Your task to perform on an android device: Show the shopping cart on walmart.com. Add jbl charge 4 to the cart on walmart.com Image 0: 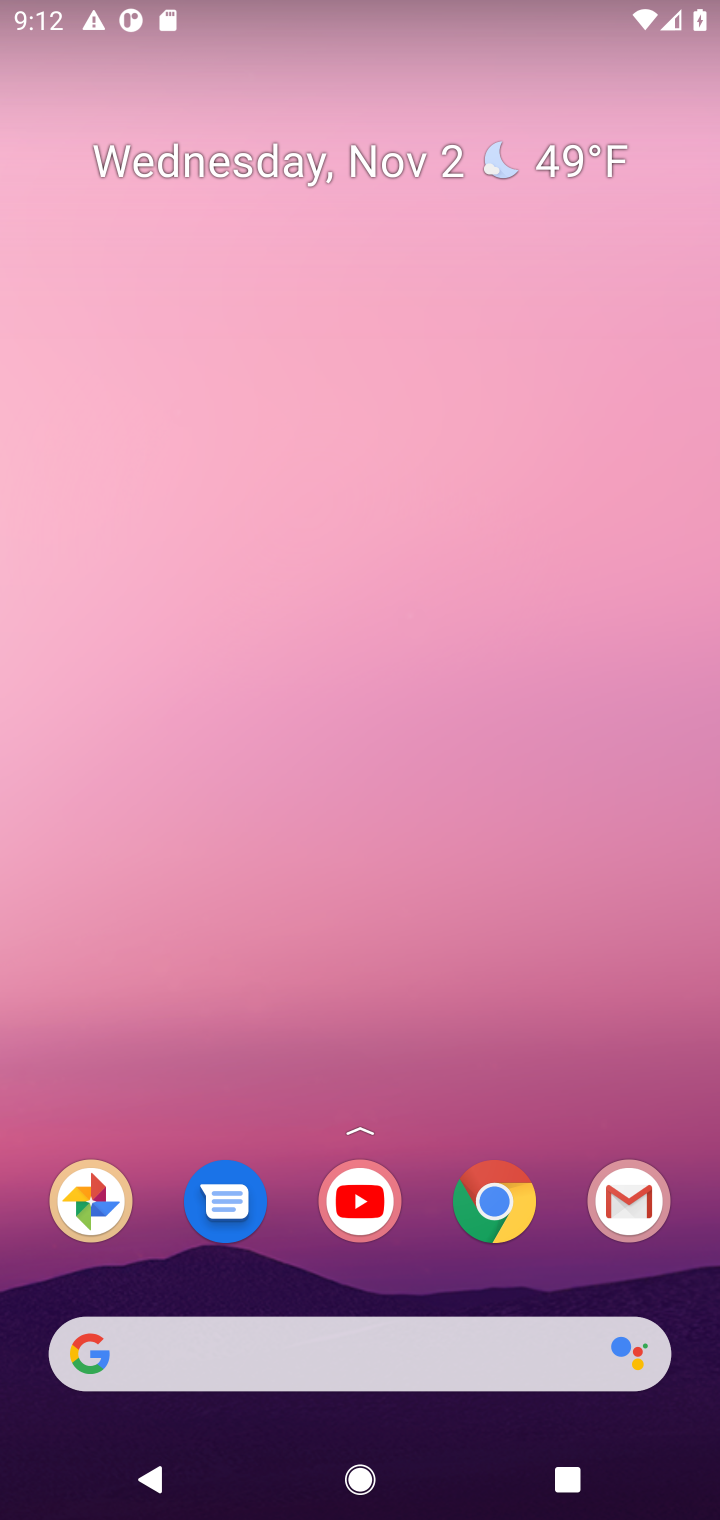
Step 0: drag from (419, 1260) to (527, 212)
Your task to perform on an android device: Show the shopping cart on walmart.com. Add jbl charge 4 to the cart on walmart.com Image 1: 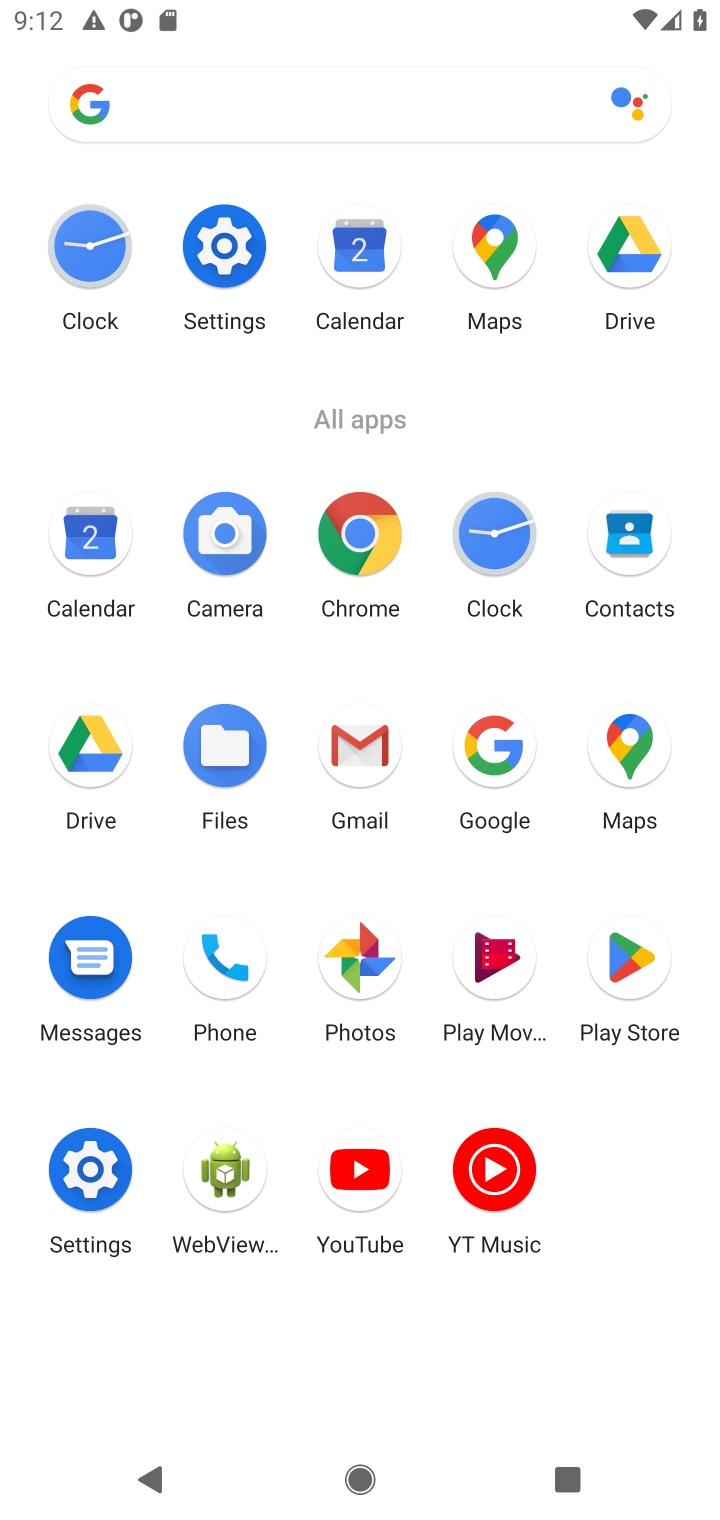
Step 1: click (365, 562)
Your task to perform on an android device: Show the shopping cart on walmart.com. Add jbl charge 4 to the cart on walmart.com Image 2: 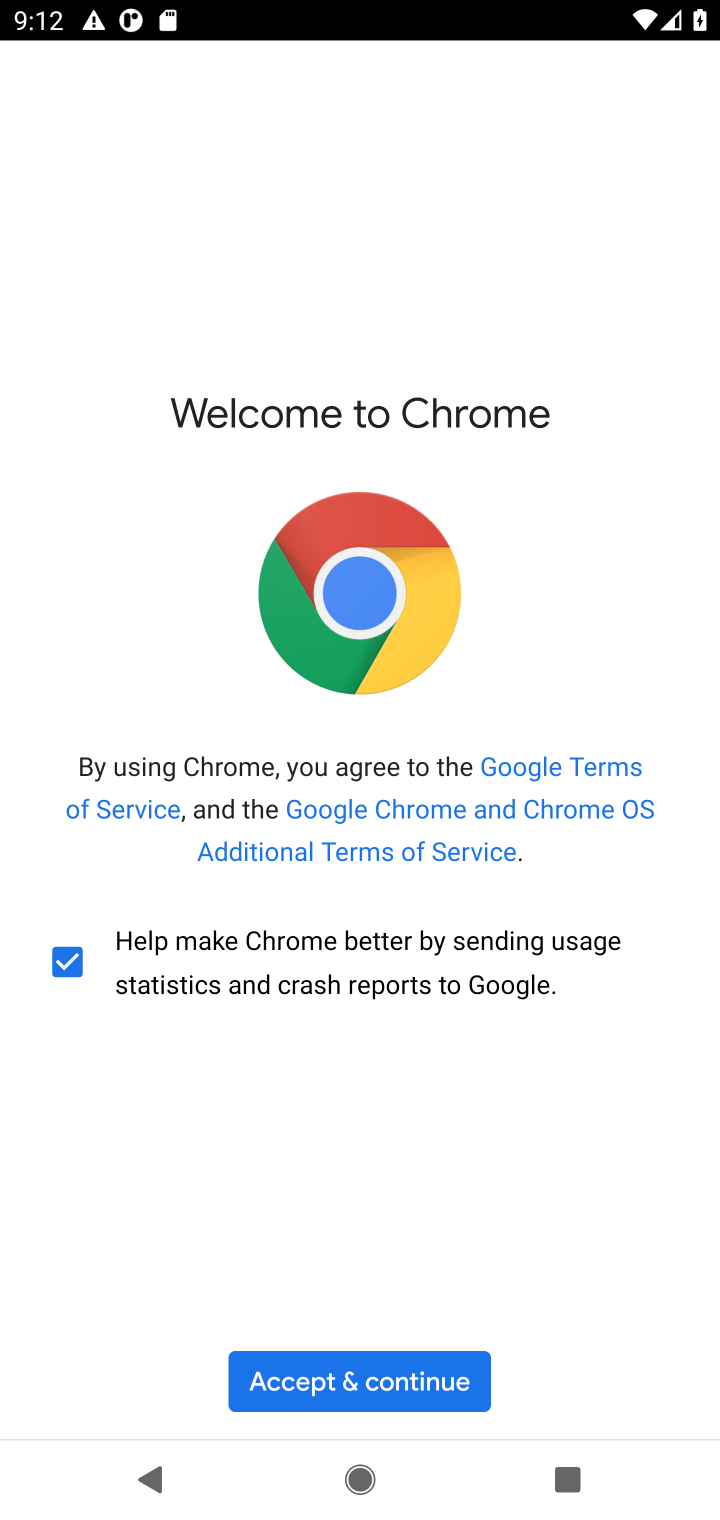
Step 2: click (352, 1390)
Your task to perform on an android device: Show the shopping cart on walmart.com. Add jbl charge 4 to the cart on walmart.com Image 3: 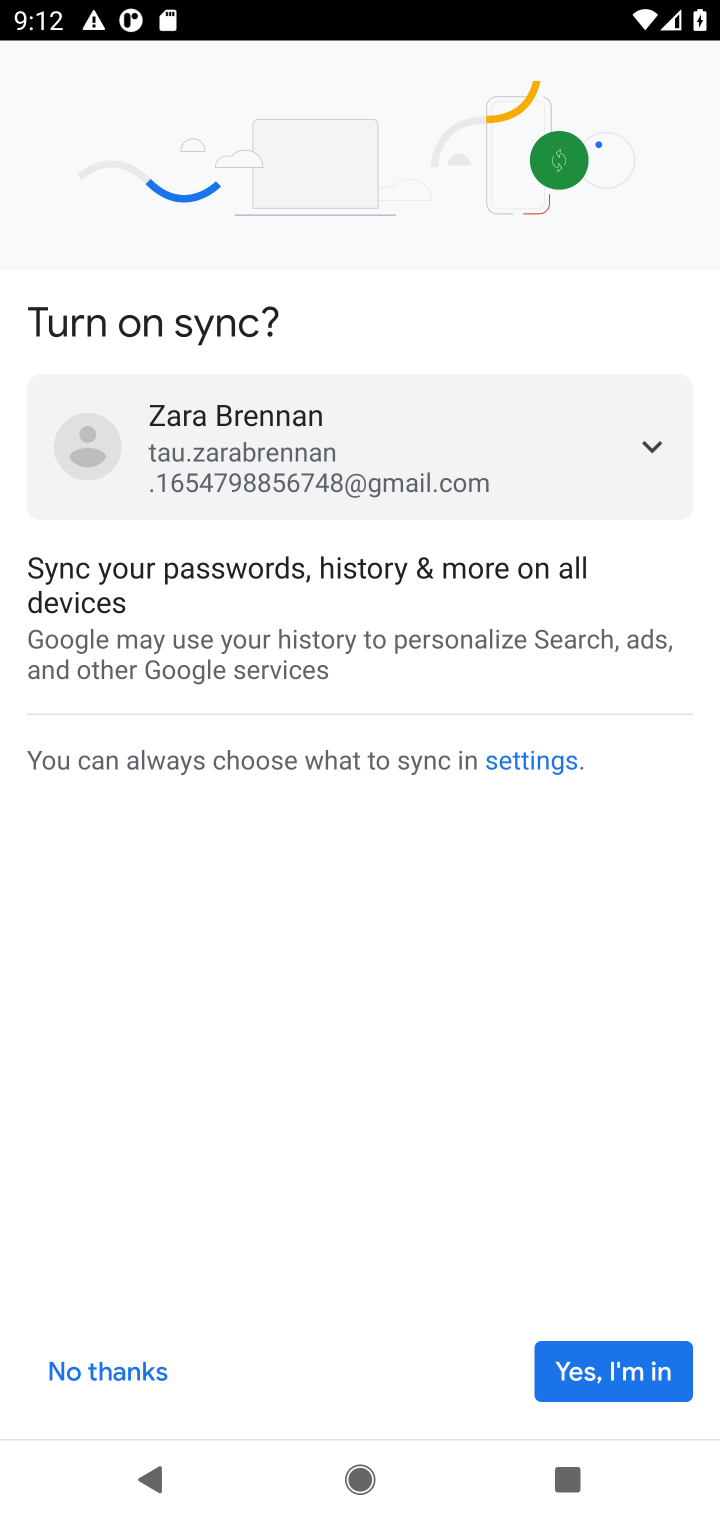
Step 3: click (596, 1384)
Your task to perform on an android device: Show the shopping cart on walmart.com. Add jbl charge 4 to the cart on walmart.com Image 4: 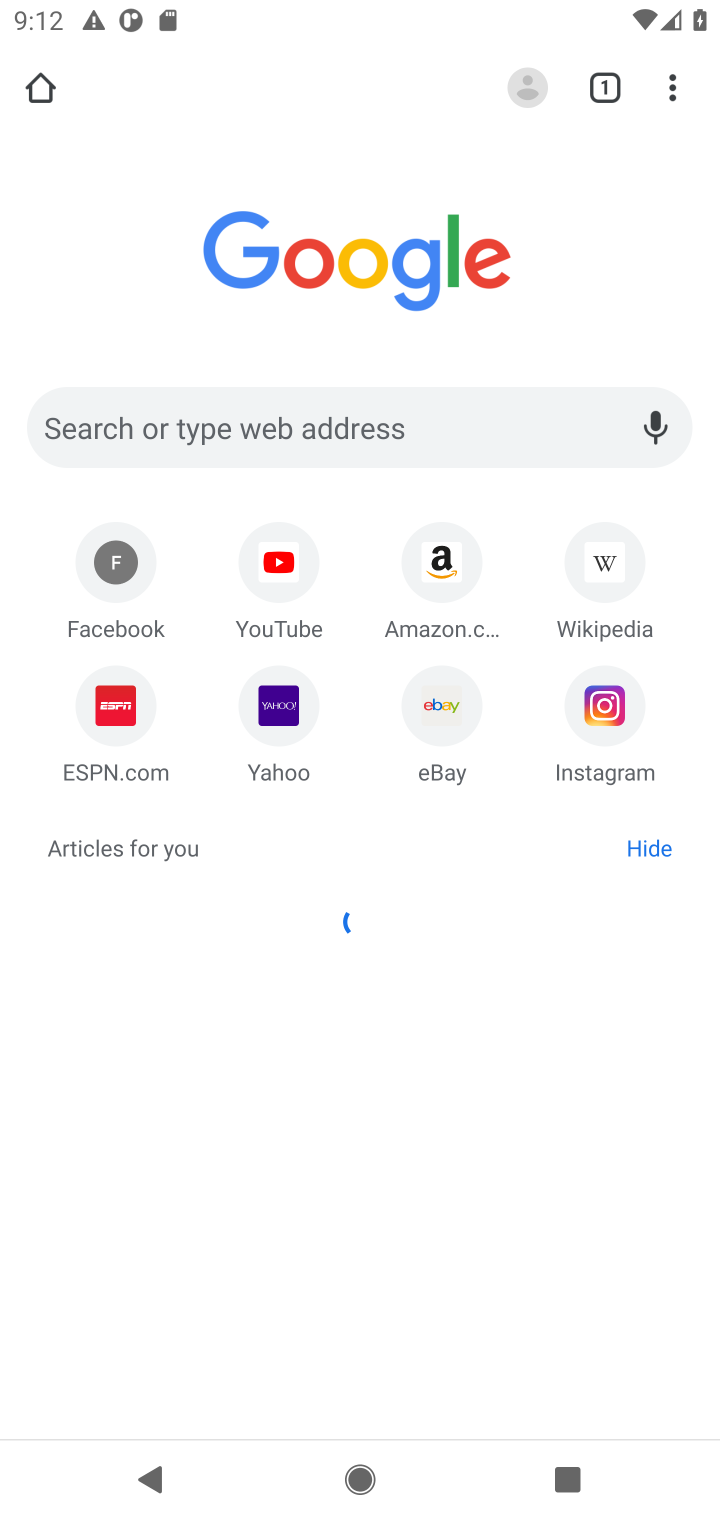
Step 4: click (417, 436)
Your task to perform on an android device: Show the shopping cart on walmart.com. Add jbl charge 4 to the cart on walmart.com Image 5: 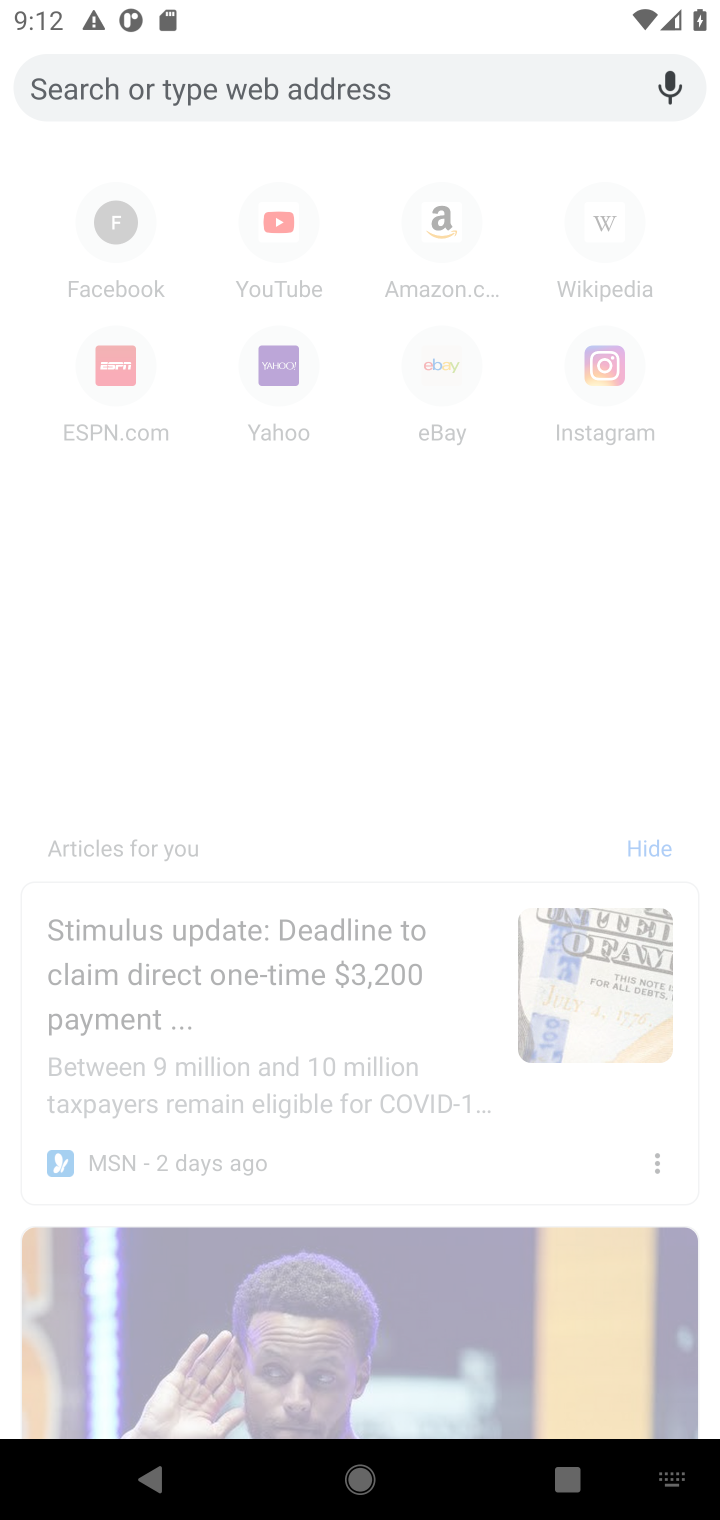
Step 5: type "walmart.com"
Your task to perform on an android device: Show the shopping cart on walmart.com. Add jbl charge 4 to the cart on walmart.com Image 6: 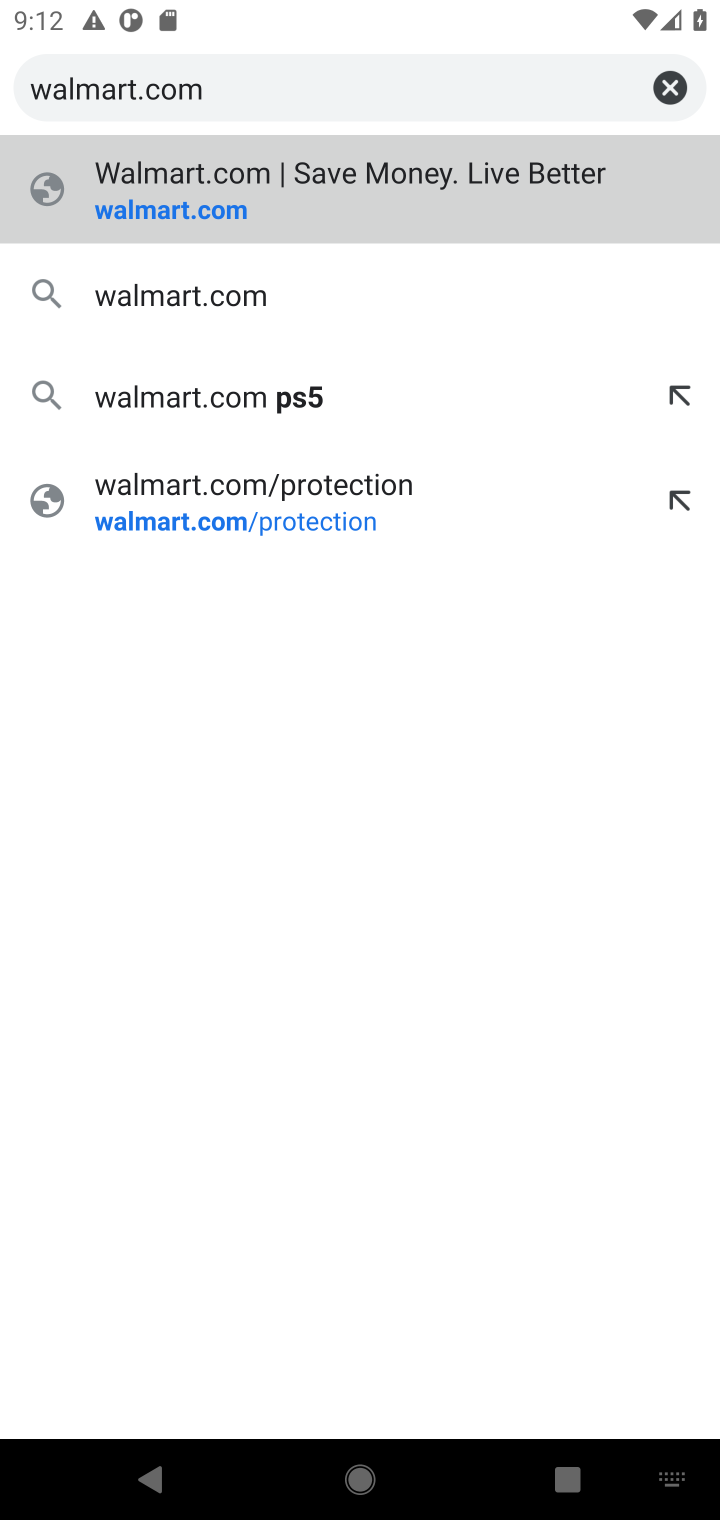
Step 6: press enter
Your task to perform on an android device: Show the shopping cart on walmart.com. Add jbl charge 4 to the cart on walmart.com Image 7: 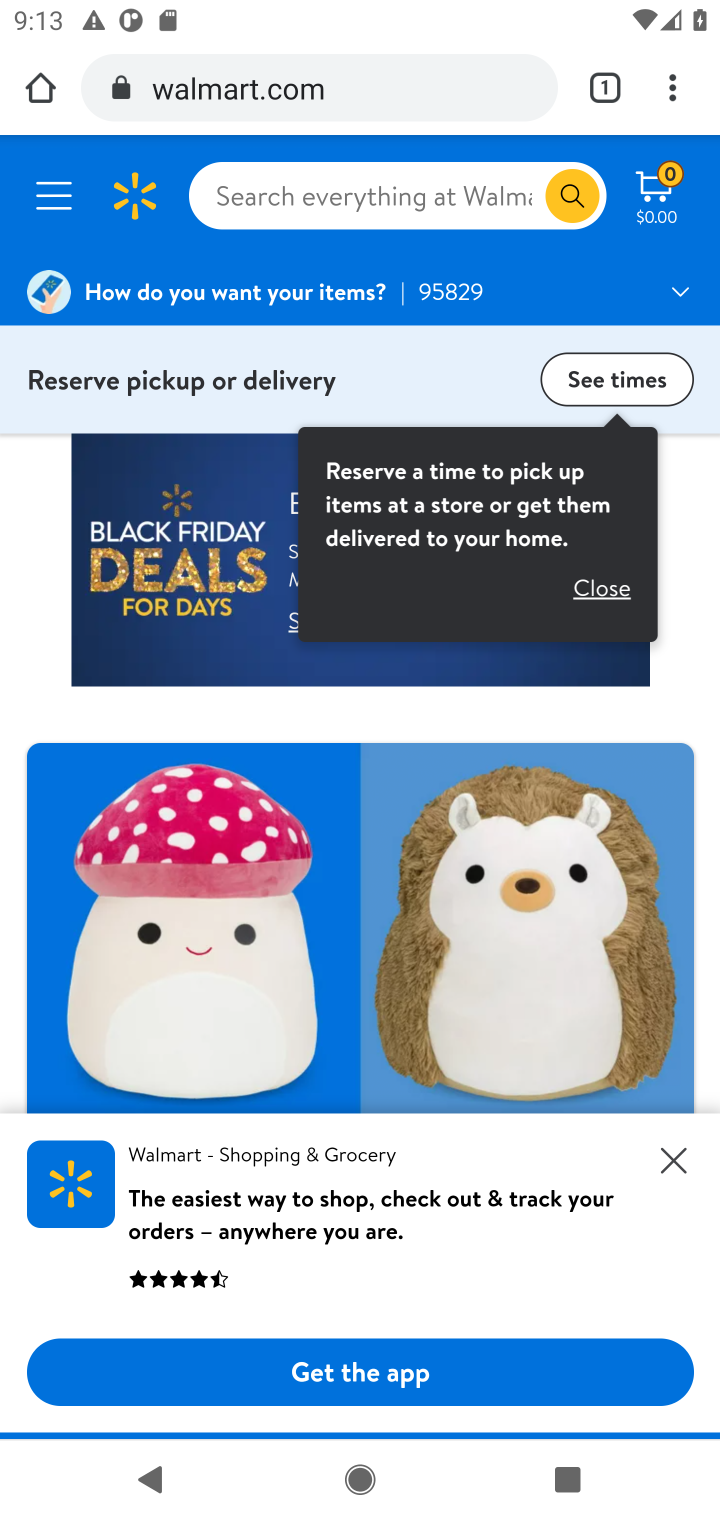
Step 7: click (372, 175)
Your task to perform on an android device: Show the shopping cart on walmart.com. Add jbl charge 4 to the cart on walmart.com Image 8: 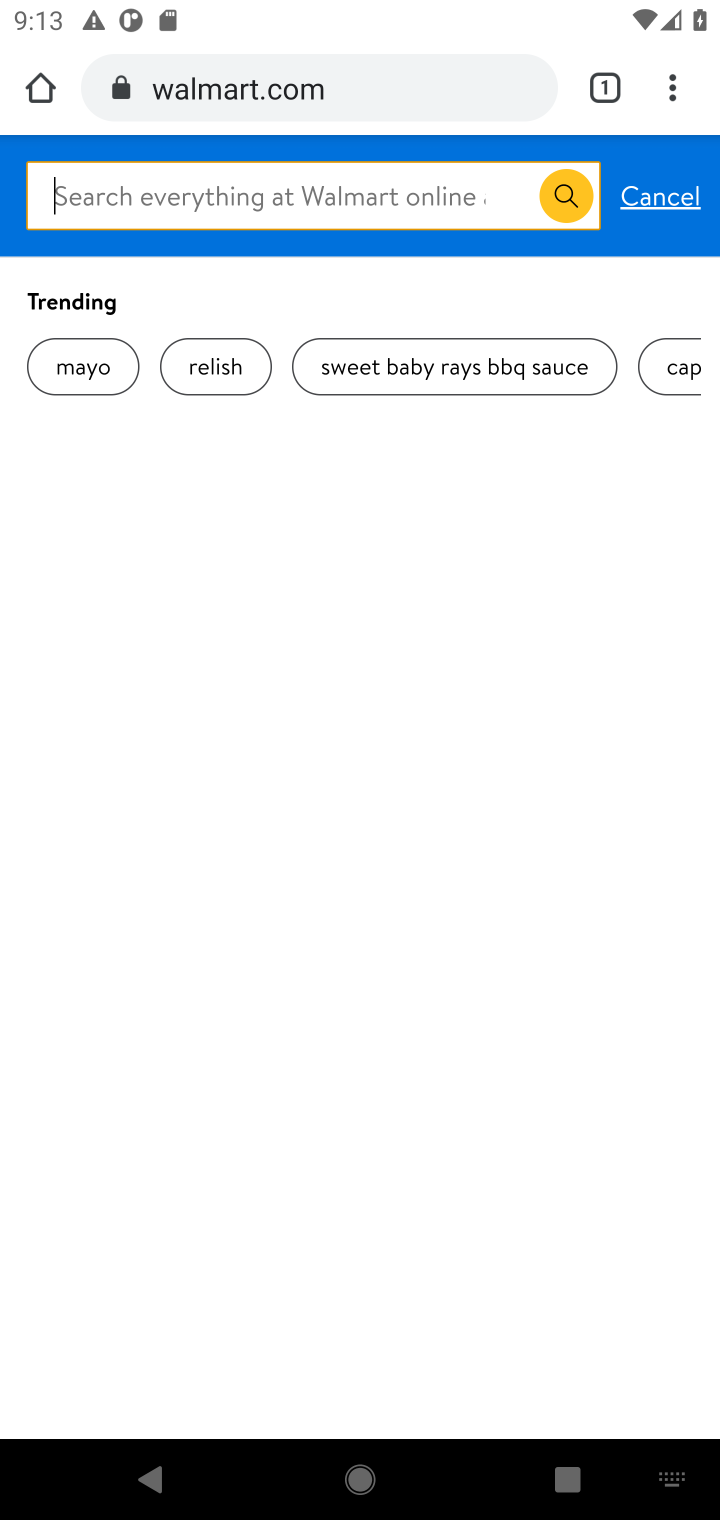
Step 8: click (622, 193)
Your task to perform on an android device: Show the shopping cart on walmart.com. Add jbl charge 4 to the cart on walmart.com Image 9: 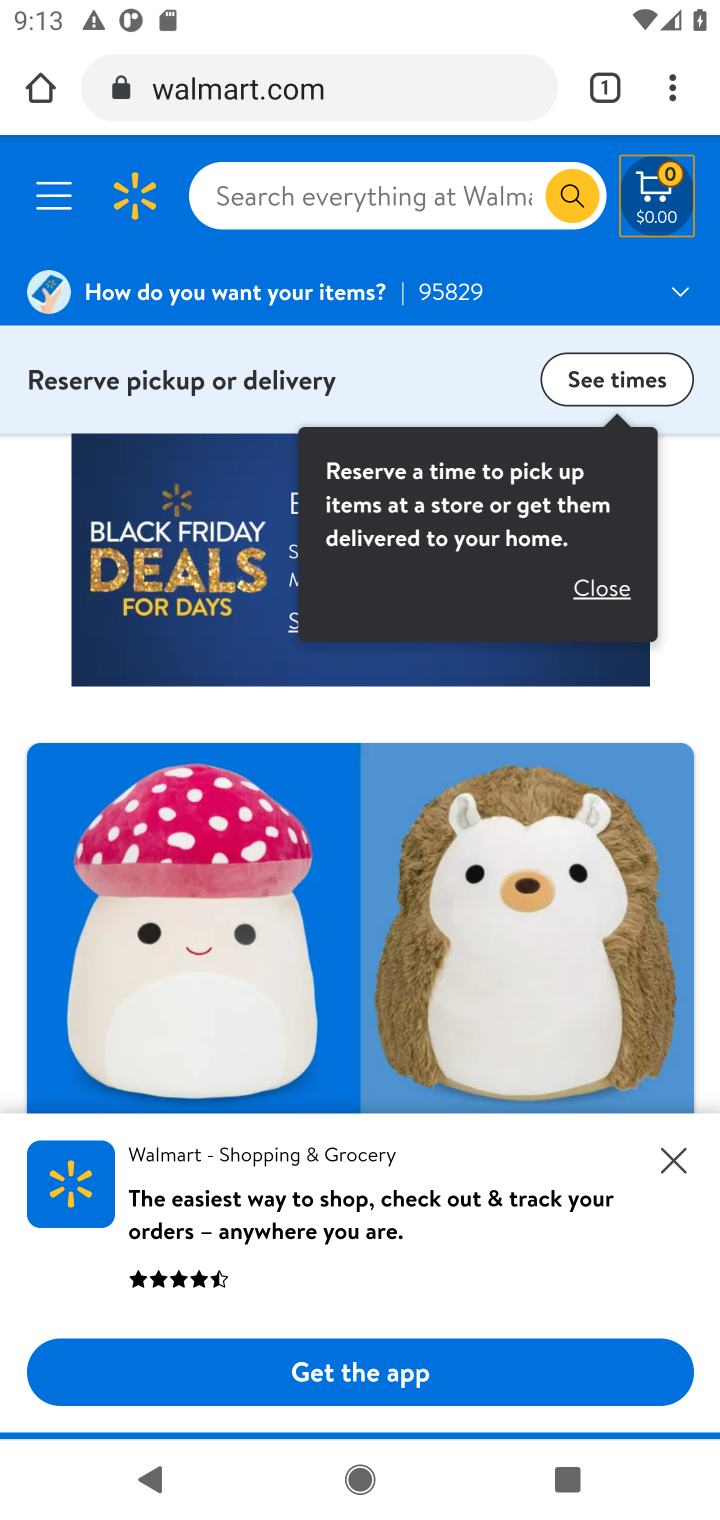
Step 9: click (656, 201)
Your task to perform on an android device: Show the shopping cart on walmart.com. Add jbl charge 4 to the cart on walmart.com Image 10: 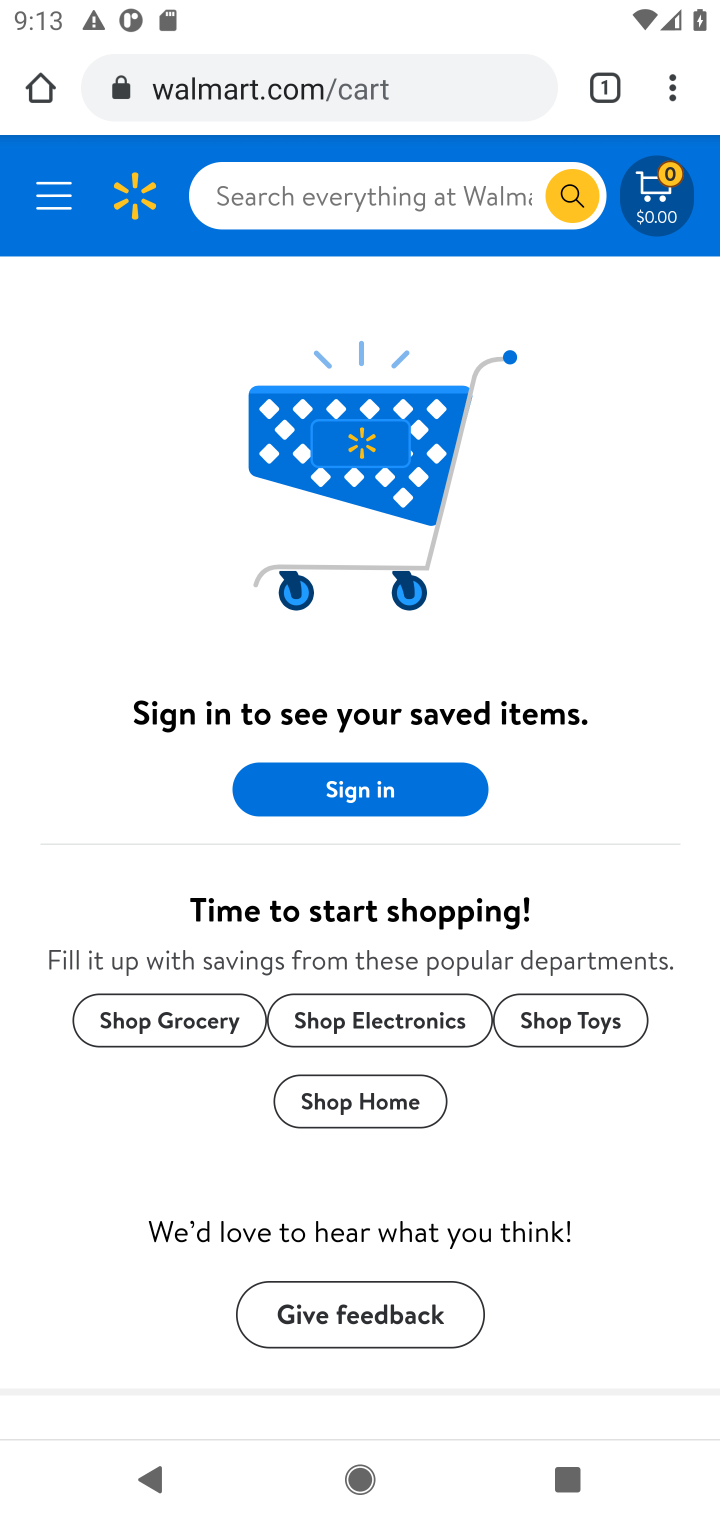
Step 10: click (416, 184)
Your task to perform on an android device: Show the shopping cart on walmart.com. Add jbl charge 4 to the cart on walmart.com Image 11: 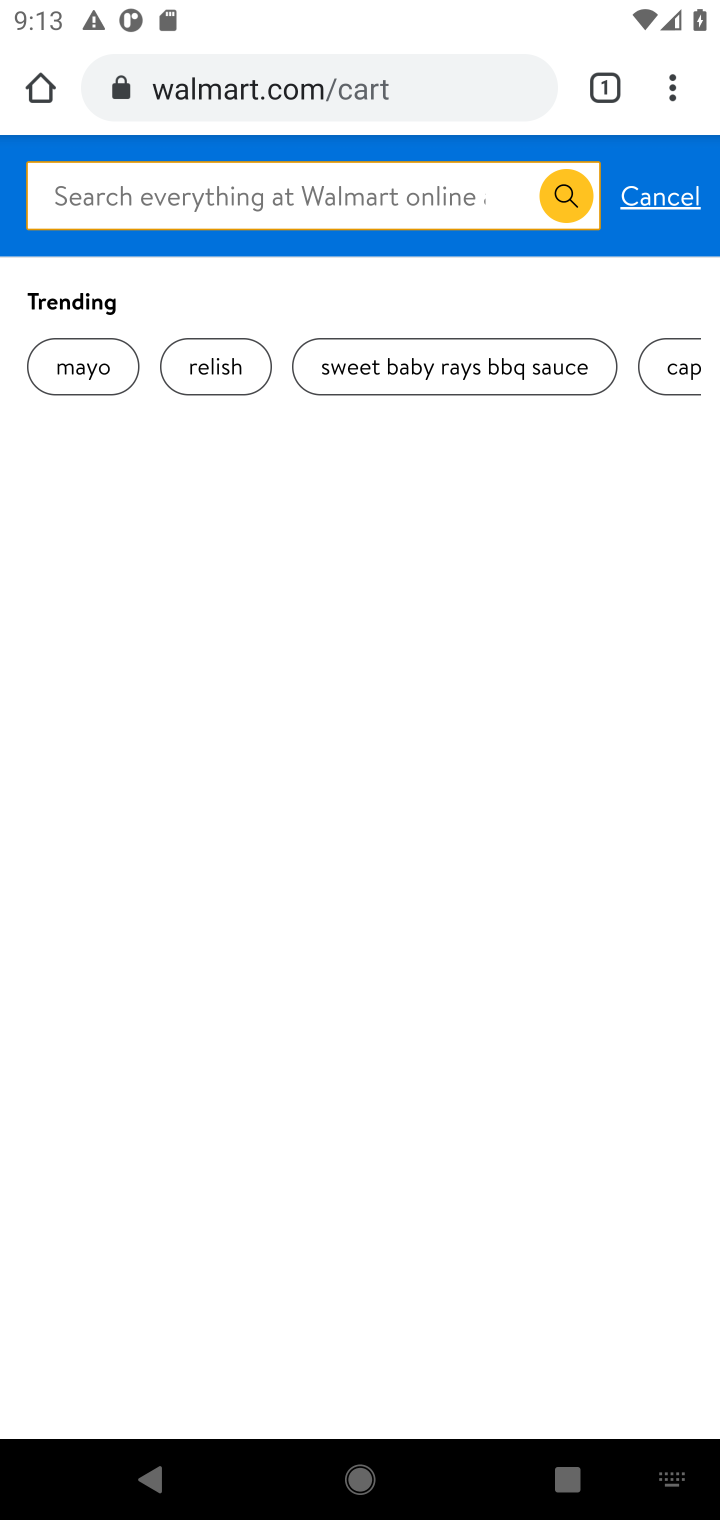
Step 11: type "jbl charge 4"
Your task to perform on an android device: Show the shopping cart on walmart.com. Add jbl charge 4 to the cart on walmart.com Image 12: 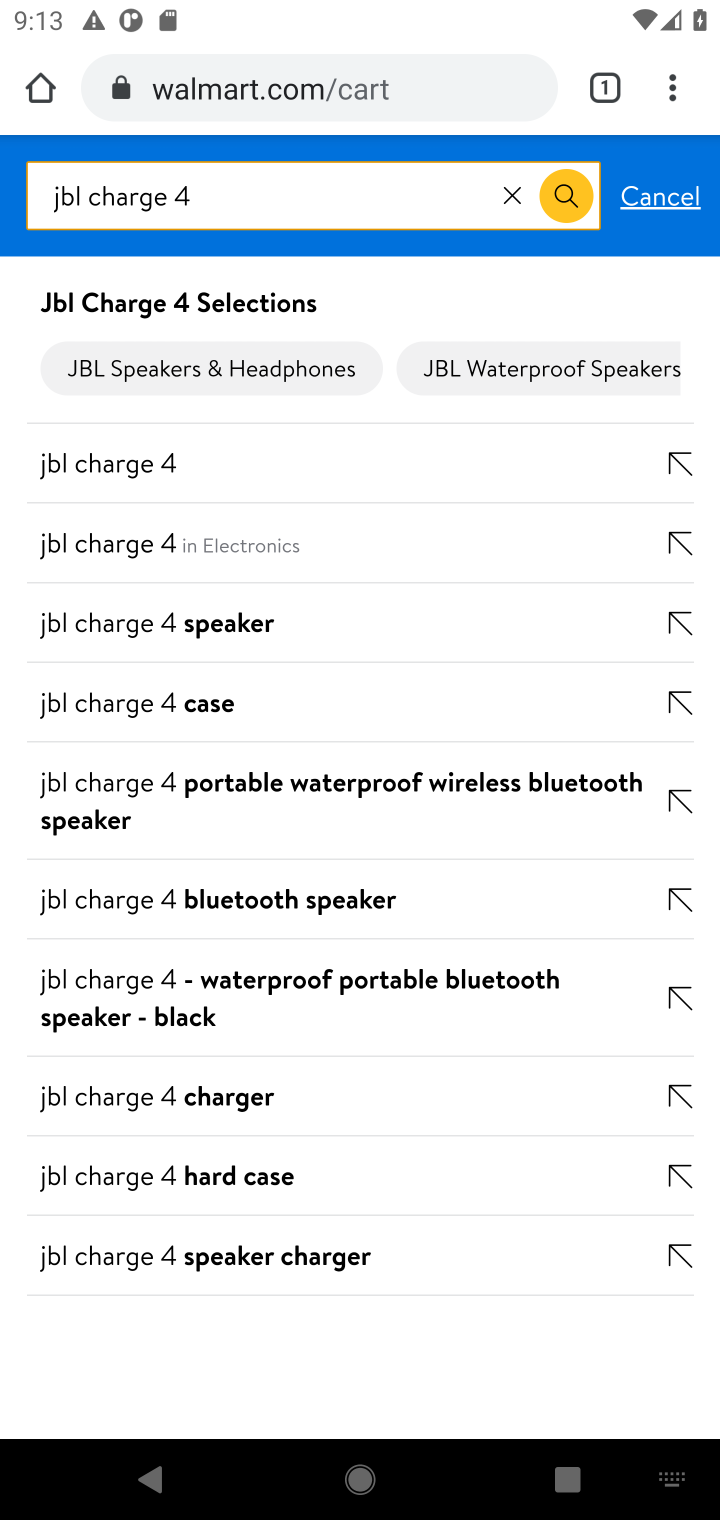
Step 12: press enter
Your task to perform on an android device: Show the shopping cart on walmart.com. Add jbl charge 4 to the cart on walmart.com Image 13: 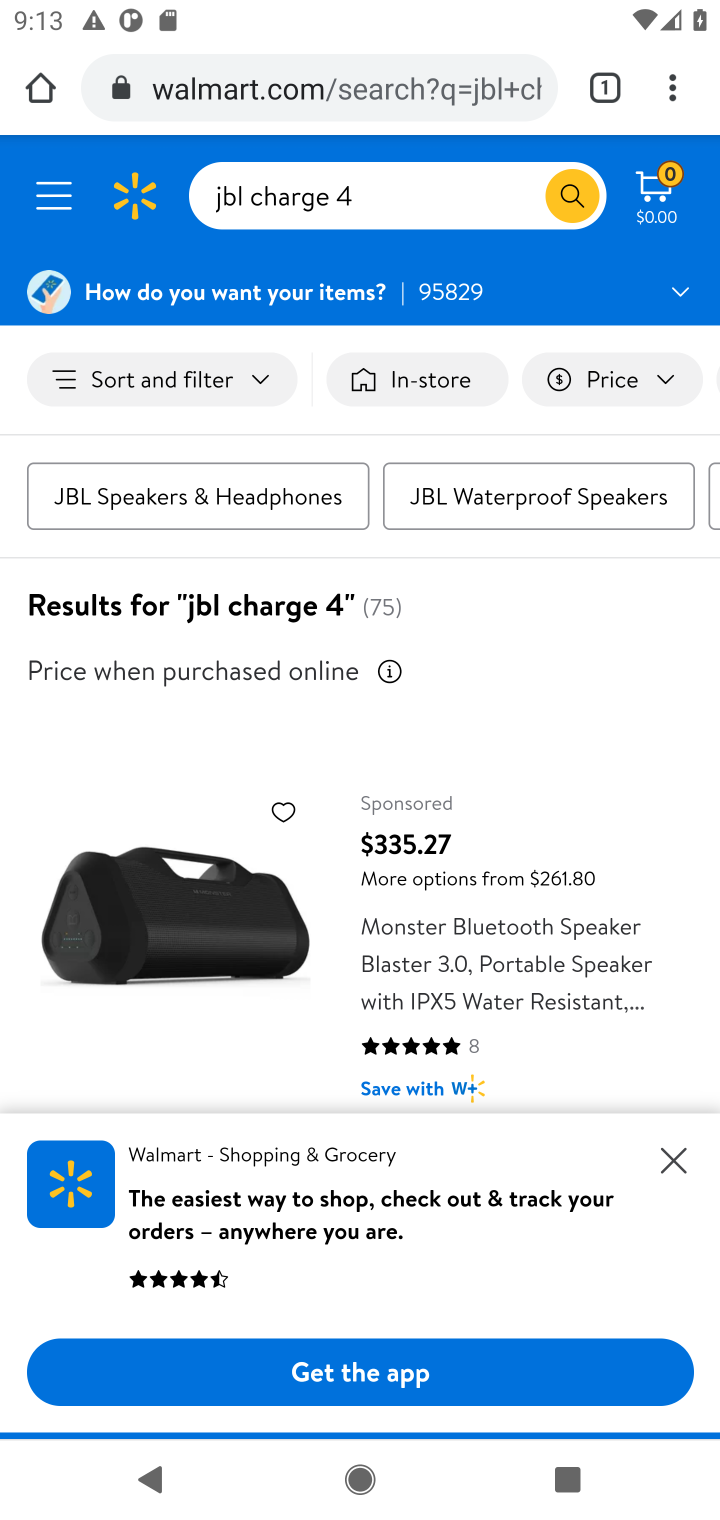
Step 13: drag from (155, 1069) to (273, 296)
Your task to perform on an android device: Show the shopping cart on walmart.com. Add jbl charge 4 to the cart on walmart.com Image 14: 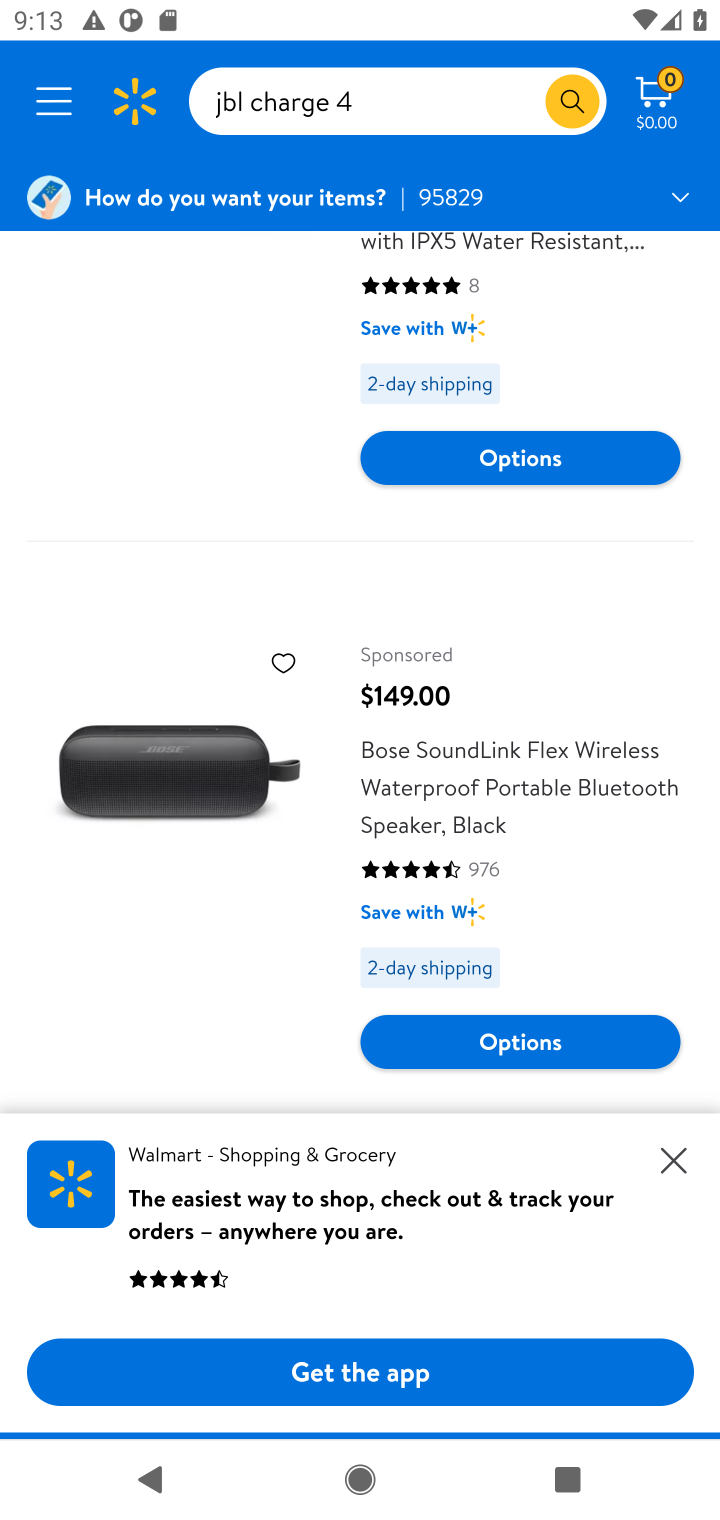
Step 14: drag from (421, 962) to (404, 490)
Your task to perform on an android device: Show the shopping cart on walmart.com. Add jbl charge 4 to the cart on walmart.com Image 15: 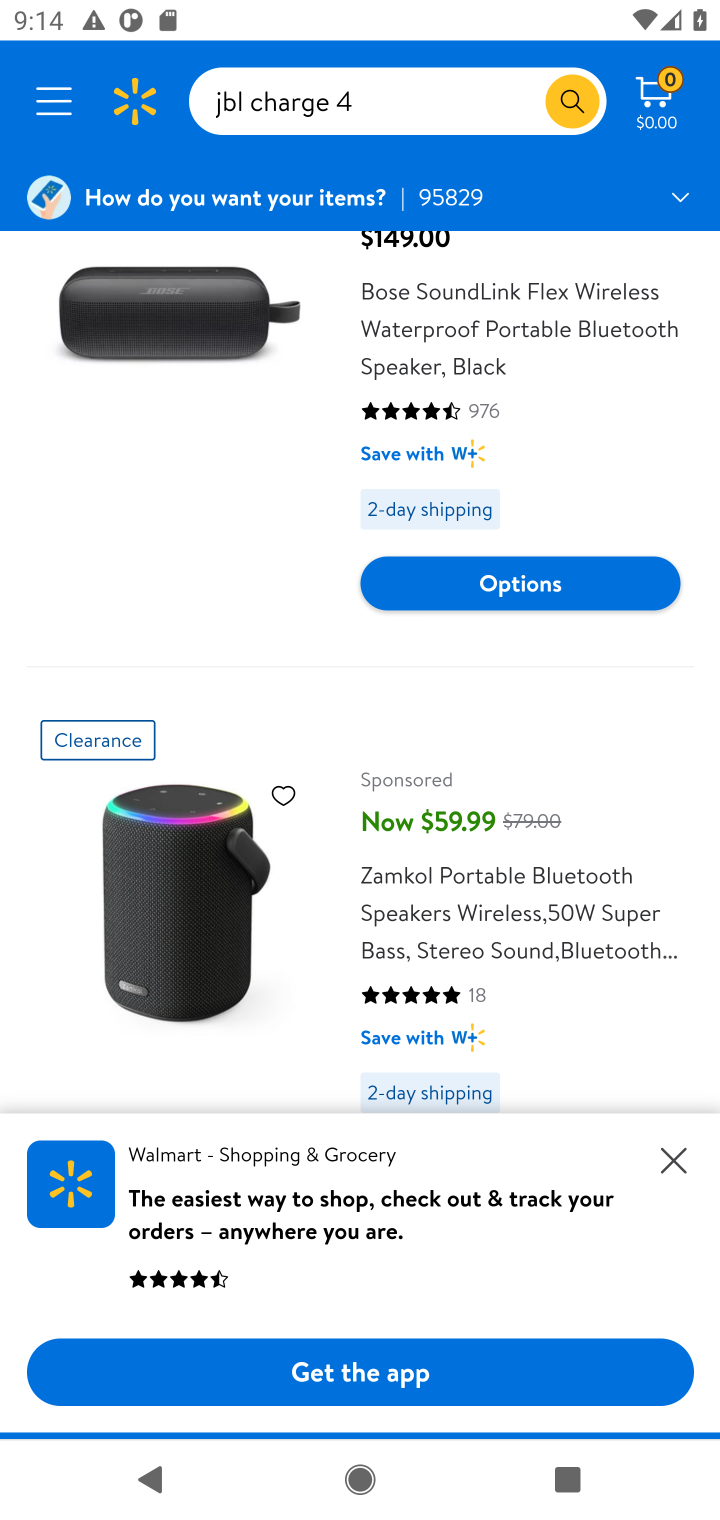
Step 15: drag from (414, 1004) to (441, 341)
Your task to perform on an android device: Show the shopping cart on walmart.com. Add jbl charge 4 to the cart on walmart.com Image 16: 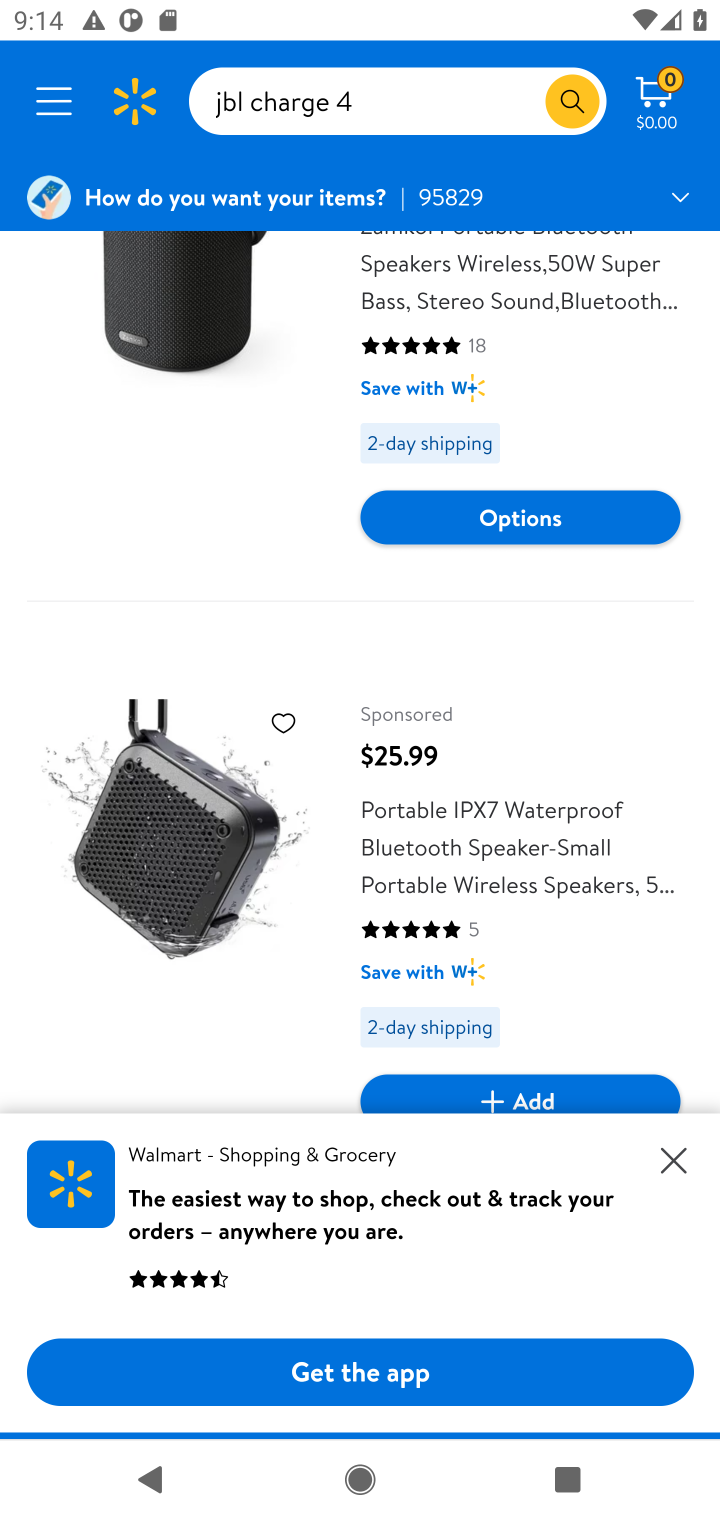
Step 16: drag from (326, 1053) to (452, 463)
Your task to perform on an android device: Show the shopping cart on walmart.com. Add jbl charge 4 to the cart on walmart.com Image 17: 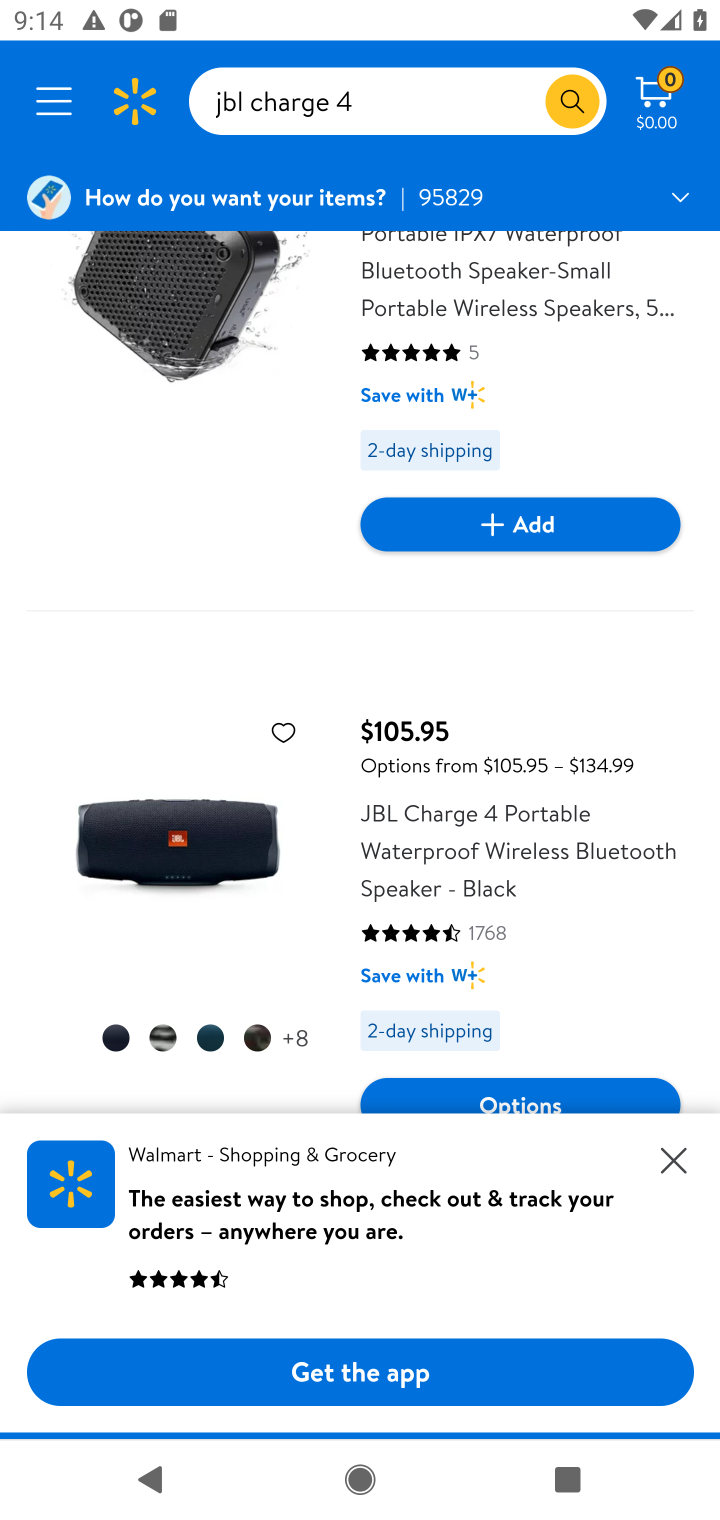
Step 17: drag from (385, 1008) to (449, 426)
Your task to perform on an android device: Show the shopping cart on walmart.com. Add jbl charge 4 to the cart on walmart.com Image 18: 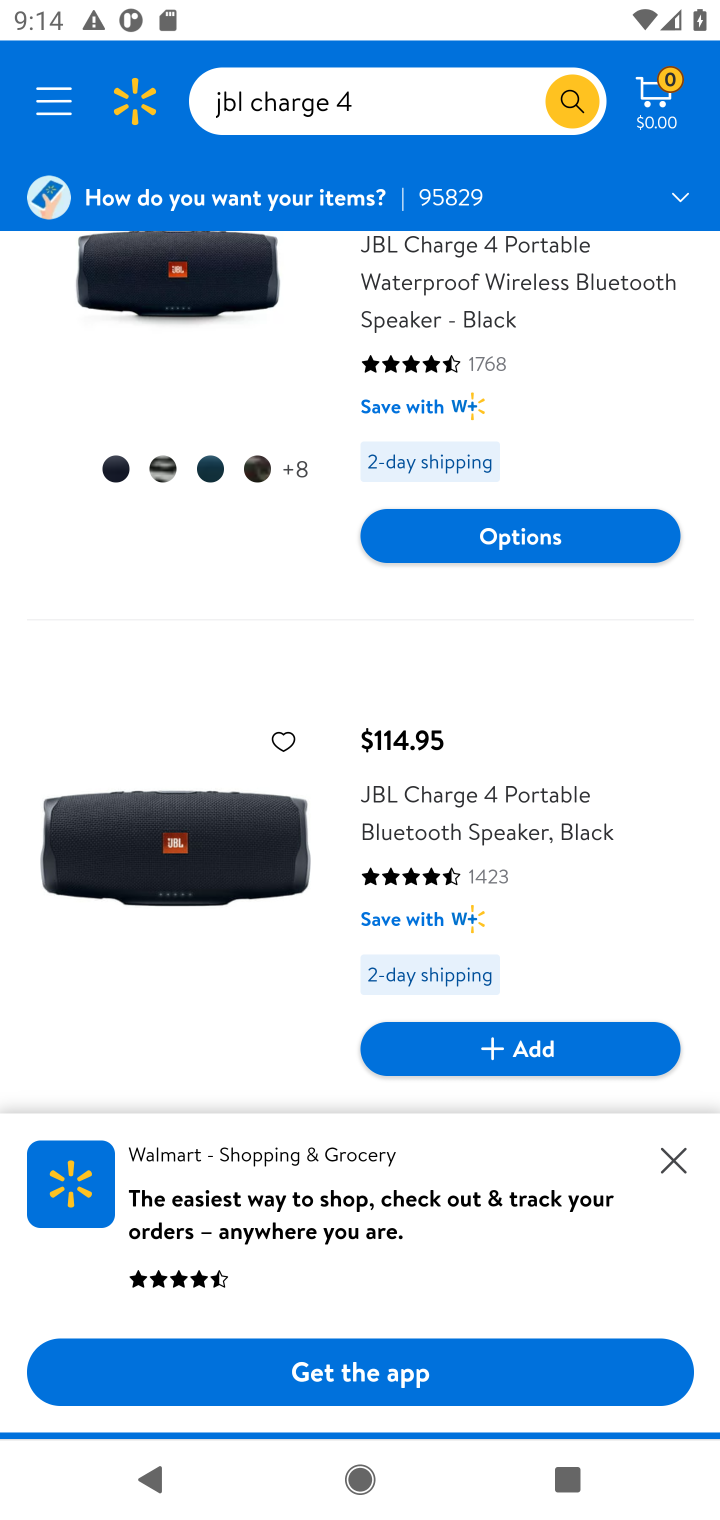
Step 18: drag from (166, 487) to (134, 699)
Your task to perform on an android device: Show the shopping cart on walmart.com. Add jbl charge 4 to the cart on walmart.com Image 19: 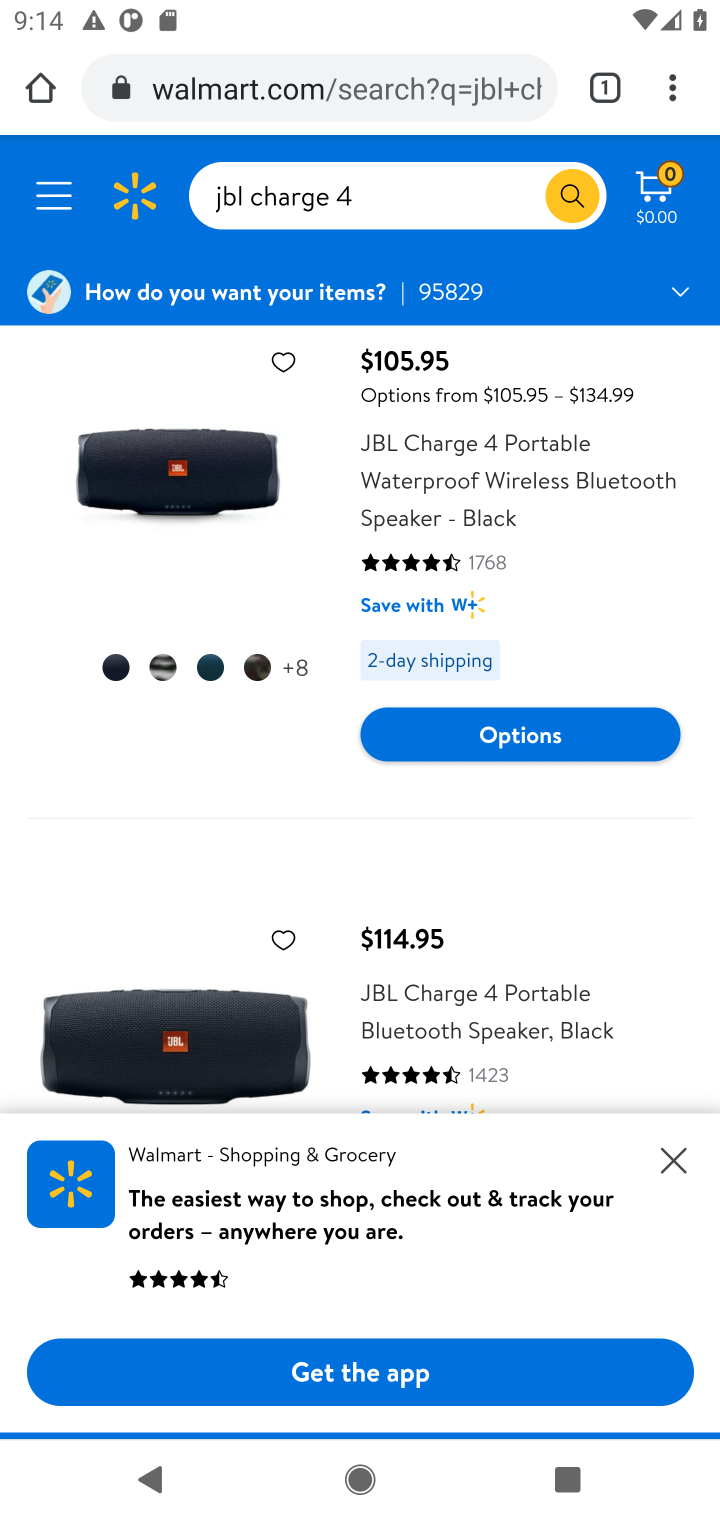
Step 19: click (528, 738)
Your task to perform on an android device: Show the shopping cart on walmart.com. Add jbl charge 4 to the cart on walmart.com Image 20: 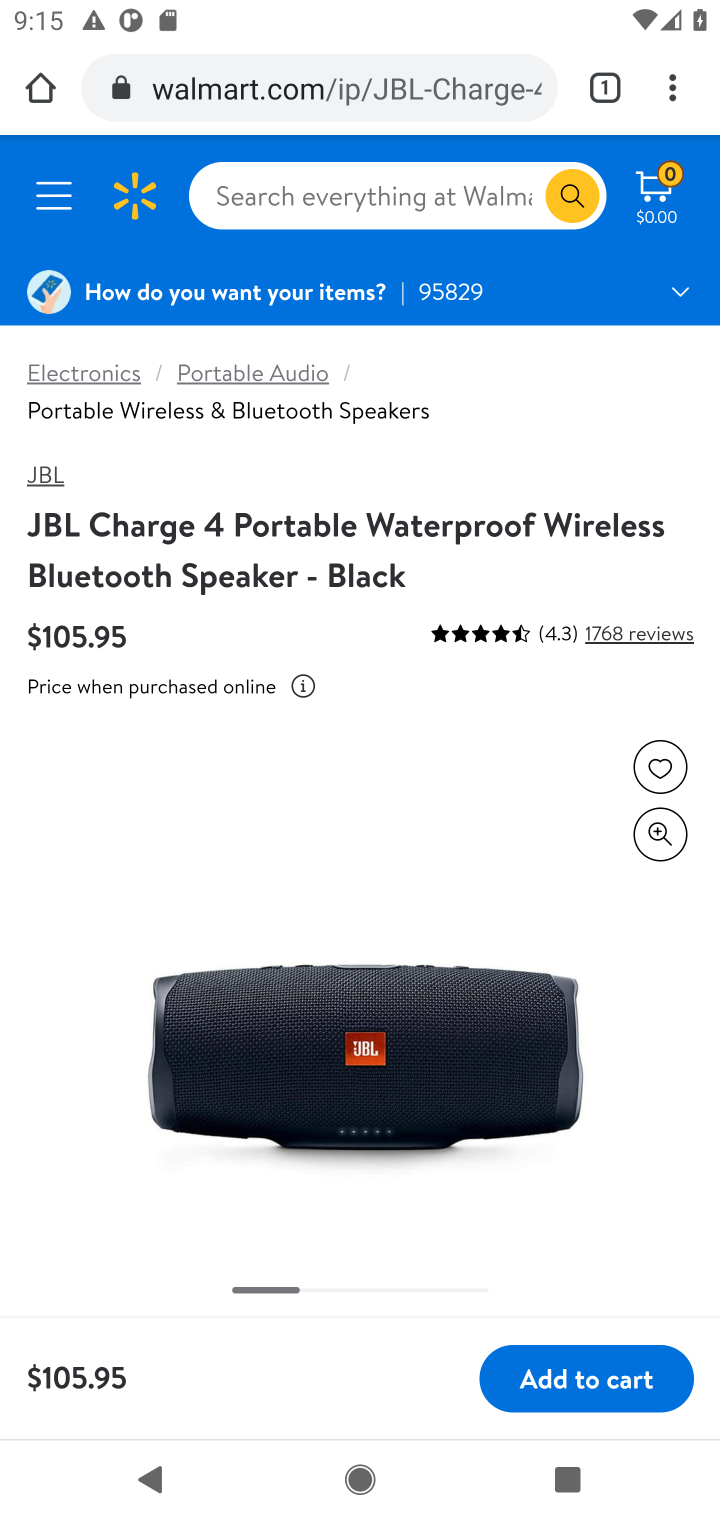
Step 20: click (610, 1377)
Your task to perform on an android device: Show the shopping cart on walmart.com. Add jbl charge 4 to the cart on walmart.com Image 21: 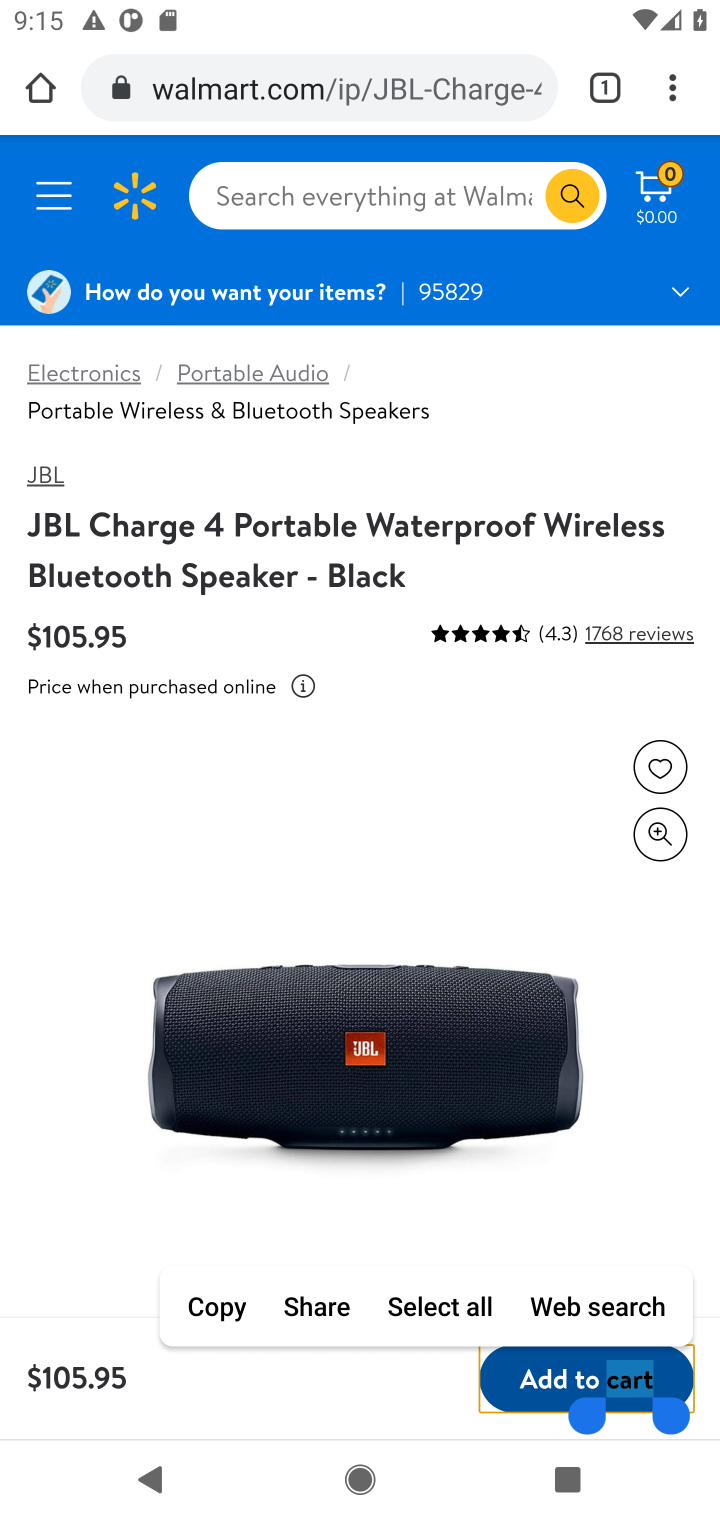
Step 21: click (550, 1377)
Your task to perform on an android device: Show the shopping cart on walmart.com. Add jbl charge 4 to the cart on walmart.com Image 22: 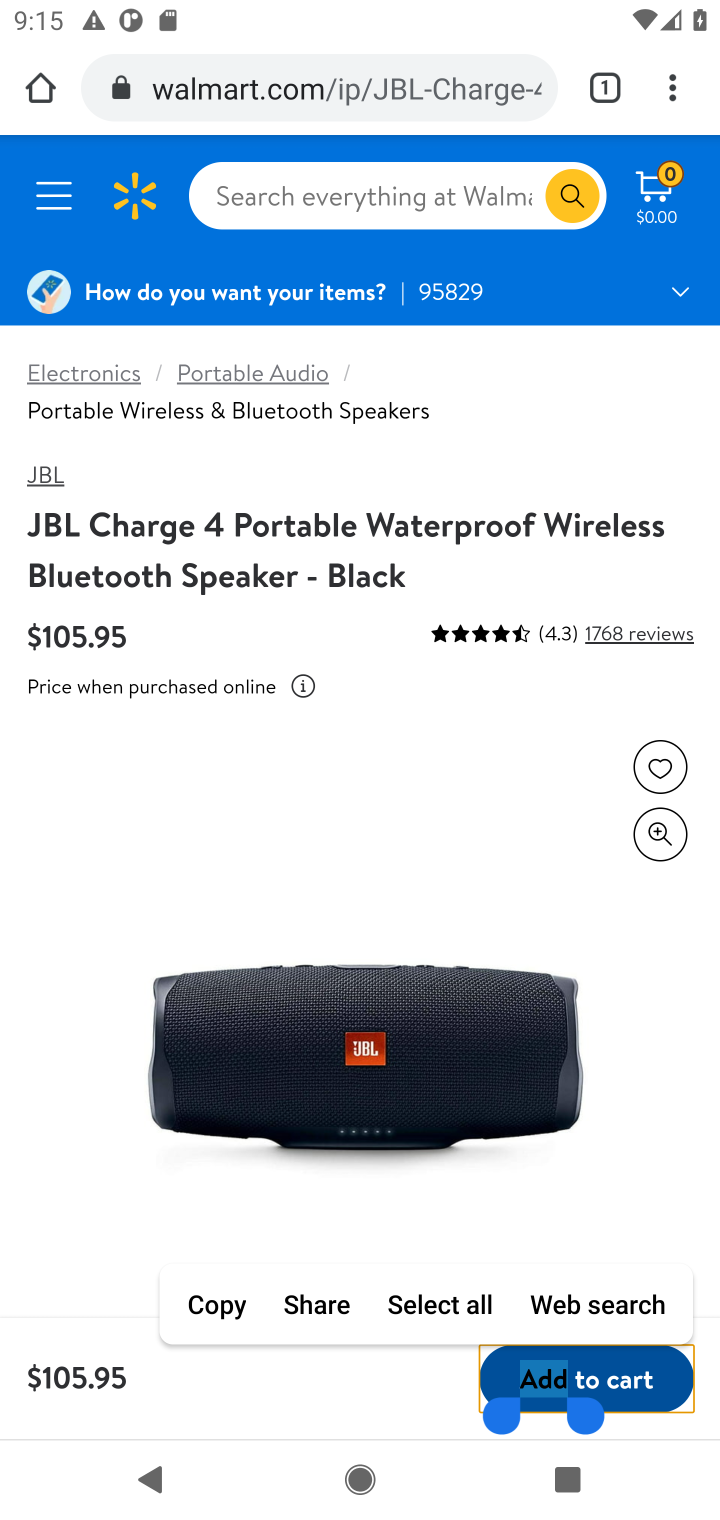
Step 22: click (564, 1230)
Your task to perform on an android device: Show the shopping cart on walmart.com. Add jbl charge 4 to the cart on walmart.com Image 23: 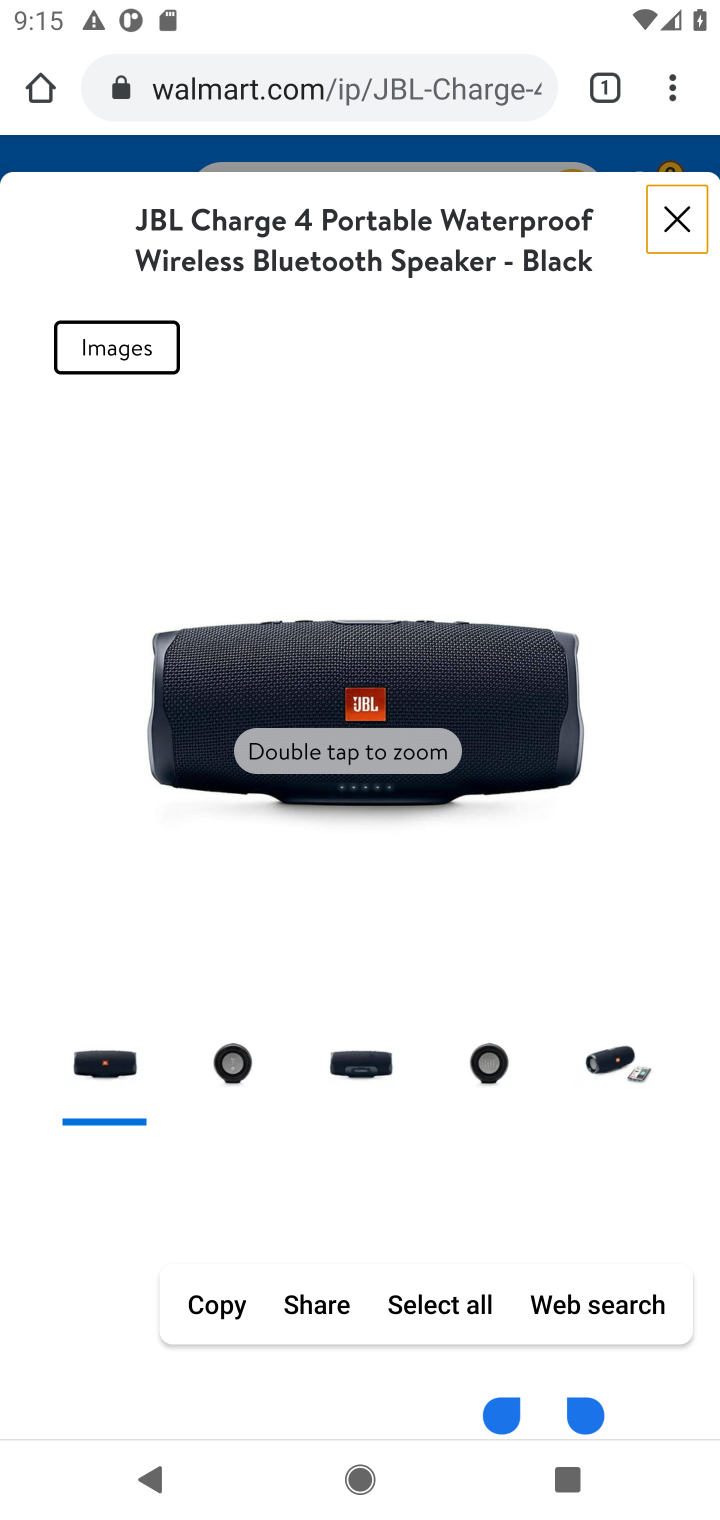
Step 23: drag from (495, 1193) to (495, 880)
Your task to perform on an android device: Show the shopping cart on walmart.com. Add jbl charge 4 to the cart on walmart.com Image 24: 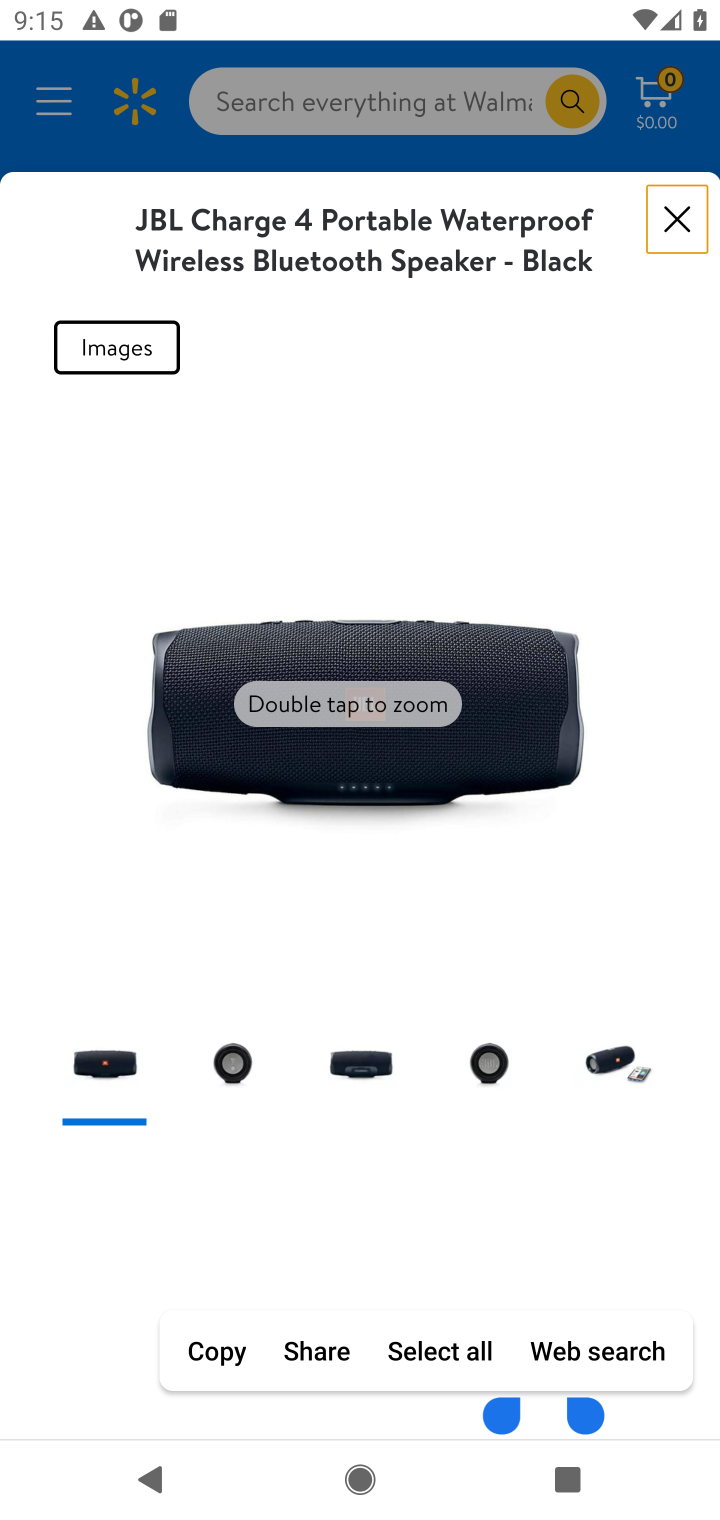
Step 24: drag from (535, 1186) to (491, 796)
Your task to perform on an android device: Show the shopping cart on walmart.com. Add jbl charge 4 to the cart on walmart.com Image 25: 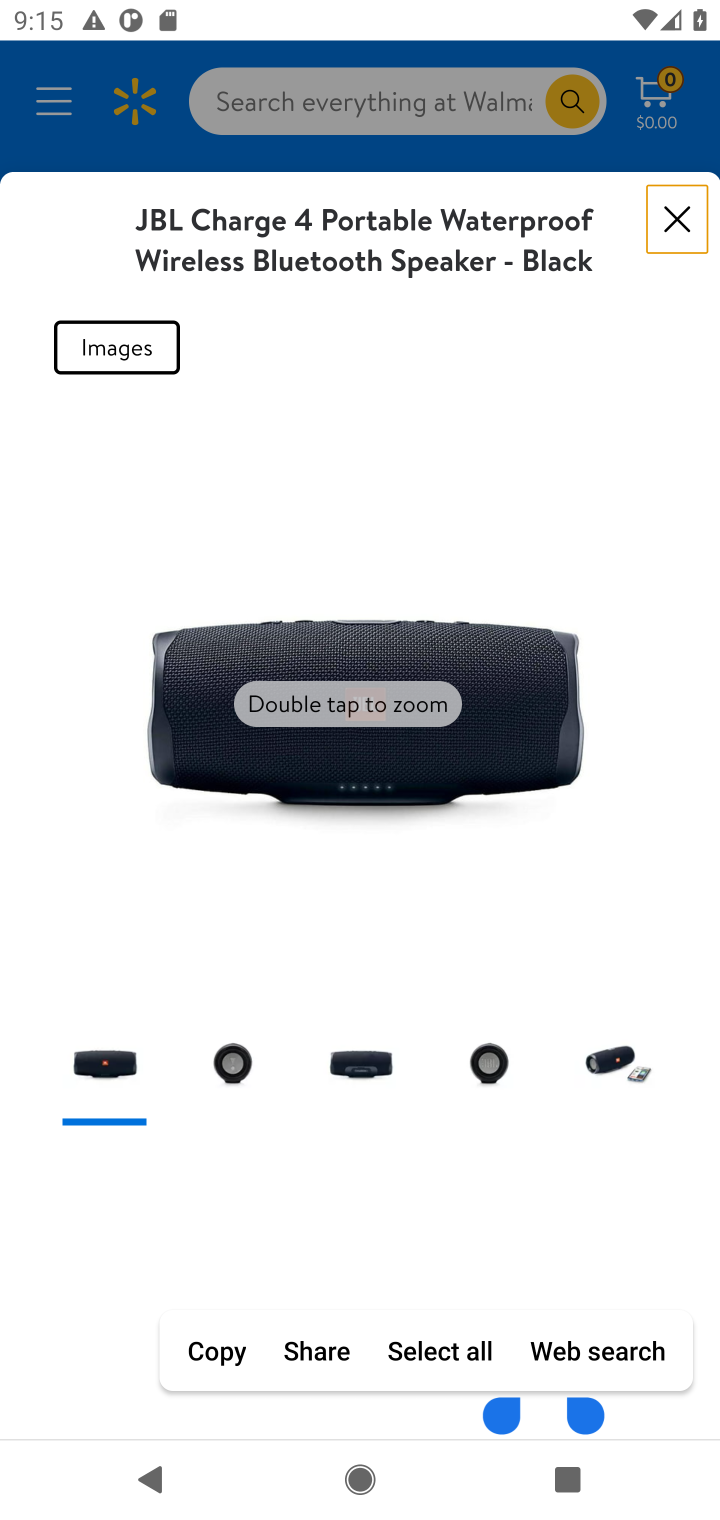
Step 25: drag from (505, 1267) to (514, 846)
Your task to perform on an android device: Show the shopping cart on walmart.com. Add jbl charge 4 to the cart on walmart.com Image 26: 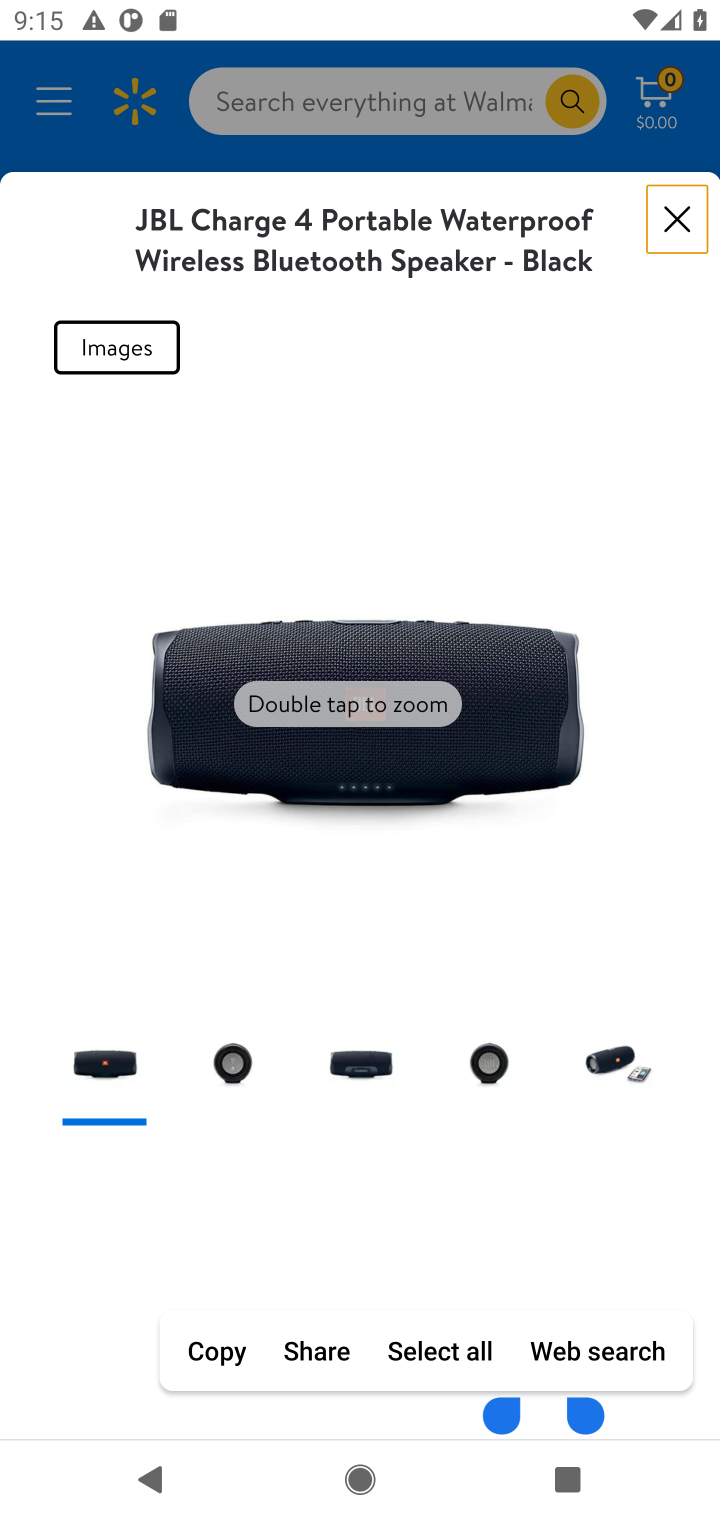
Step 26: click (596, 1315)
Your task to perform on an android device: Show the shopping cart on walmart.com. Add jbl charge 4 to the cart on walmart.com Image 27: 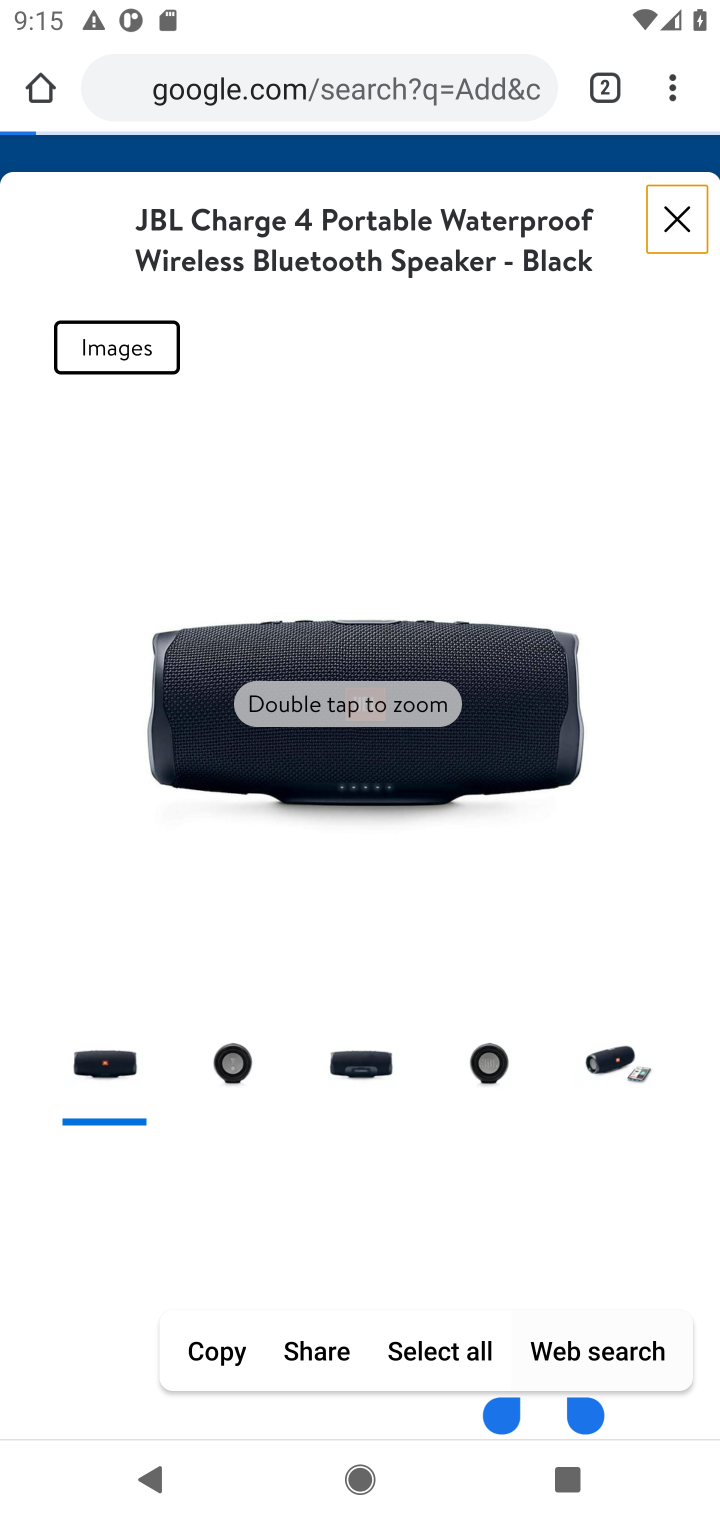
Step 27: click (610, 1402)
Your task to perform on an android device: Show the shopping cart on walmart.com. Add jbl charge 4 to the cart on walmart.com Image 28: 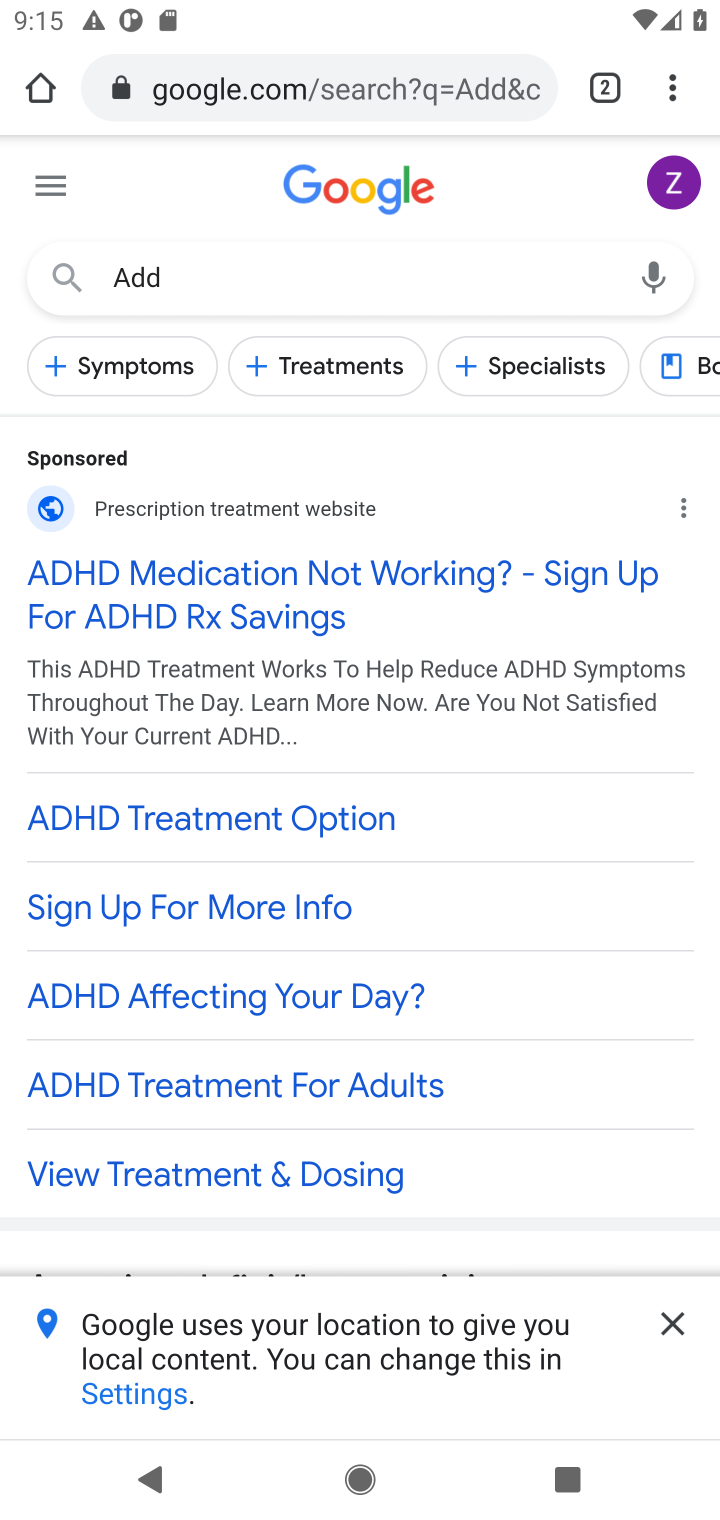
Step 28: press back button
Your task to perform on an android device: Show the shopping cart on walmart.com. Add jbl charge 4 to the cart on walmart.com Image 29: 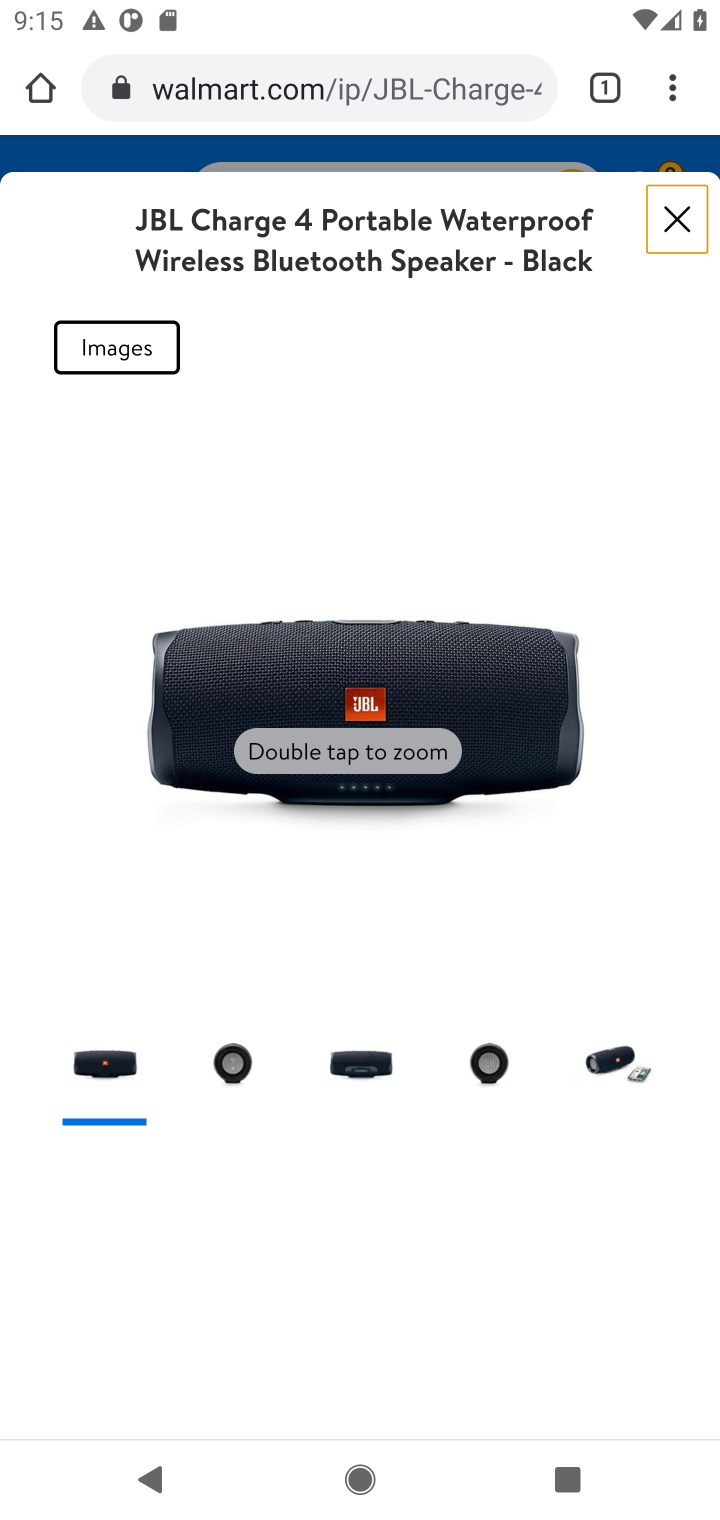
Step 29: drag from (381, 1238) to (491, 398)
Your task to perform on an android device: Show the shopping cart on walmart.com. Add jbl charge 4 to the cart on walmart.com Image 30: 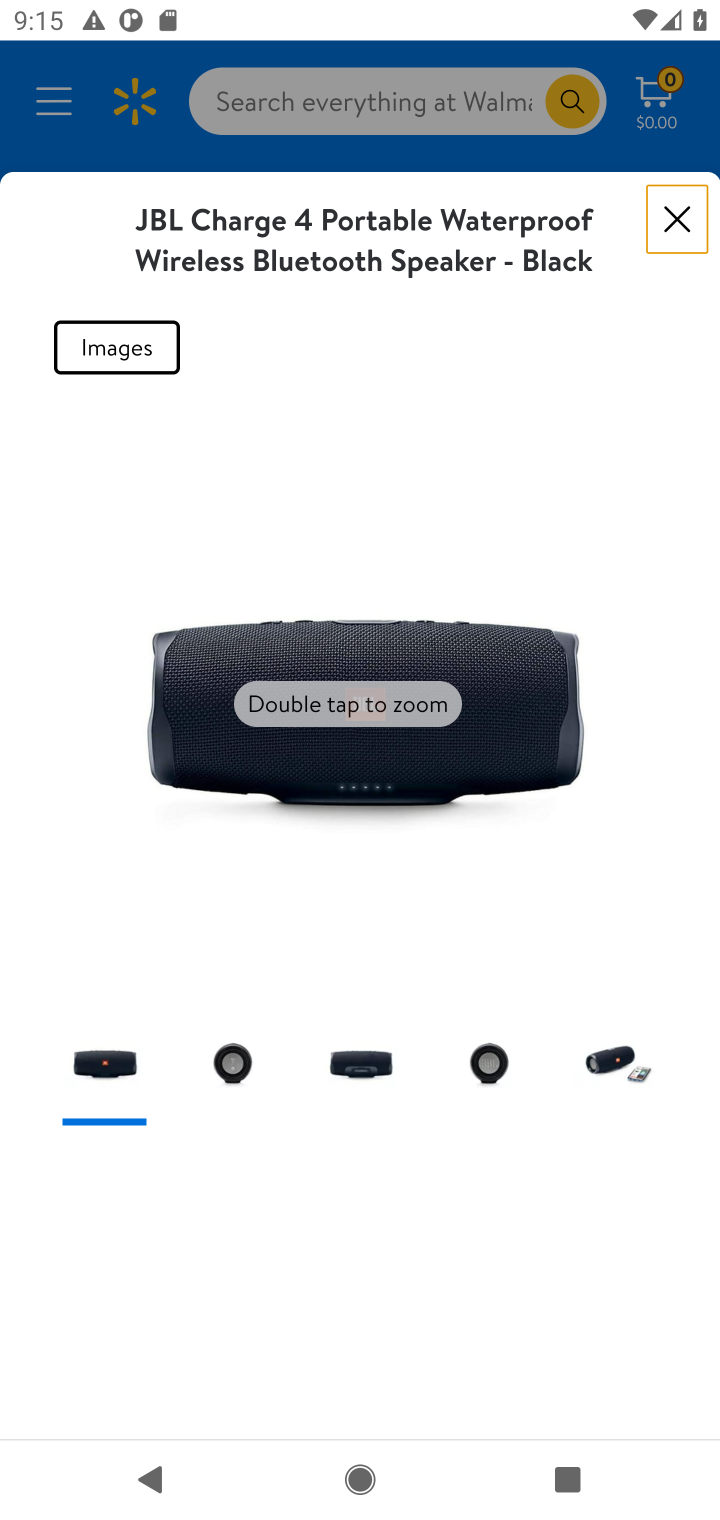
Step 30: drag from (588, 1394) to (566, 1002)
Your task to perform on an android device: Show the shopping cart on walmart.com. Add jbl charge 4 to the cart on walmart.com Image 31: 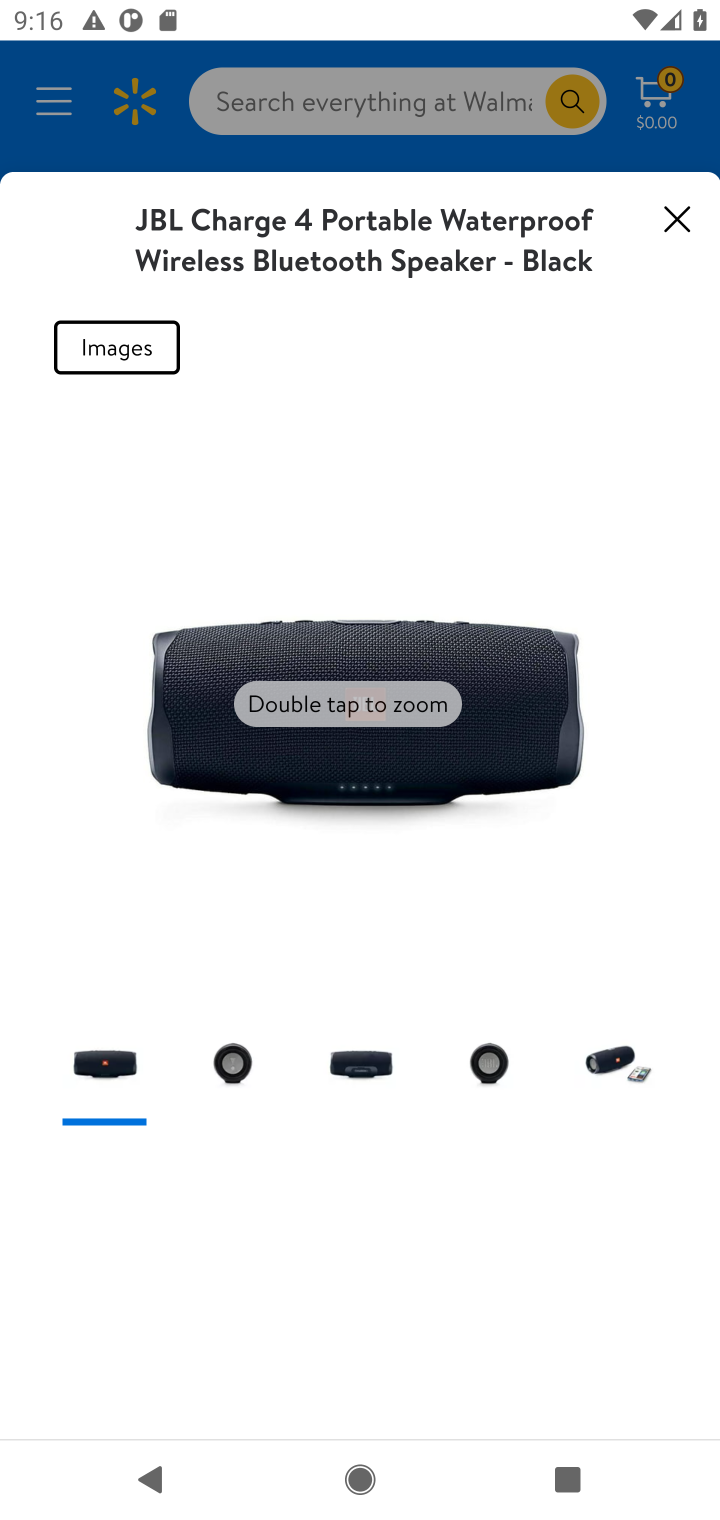
Step 31: click (678, 201)
Your task to perform on an android device: Show the shopping cart on walmart.com. Add jbl charge 4 to the cart on walmart.com Image 32: 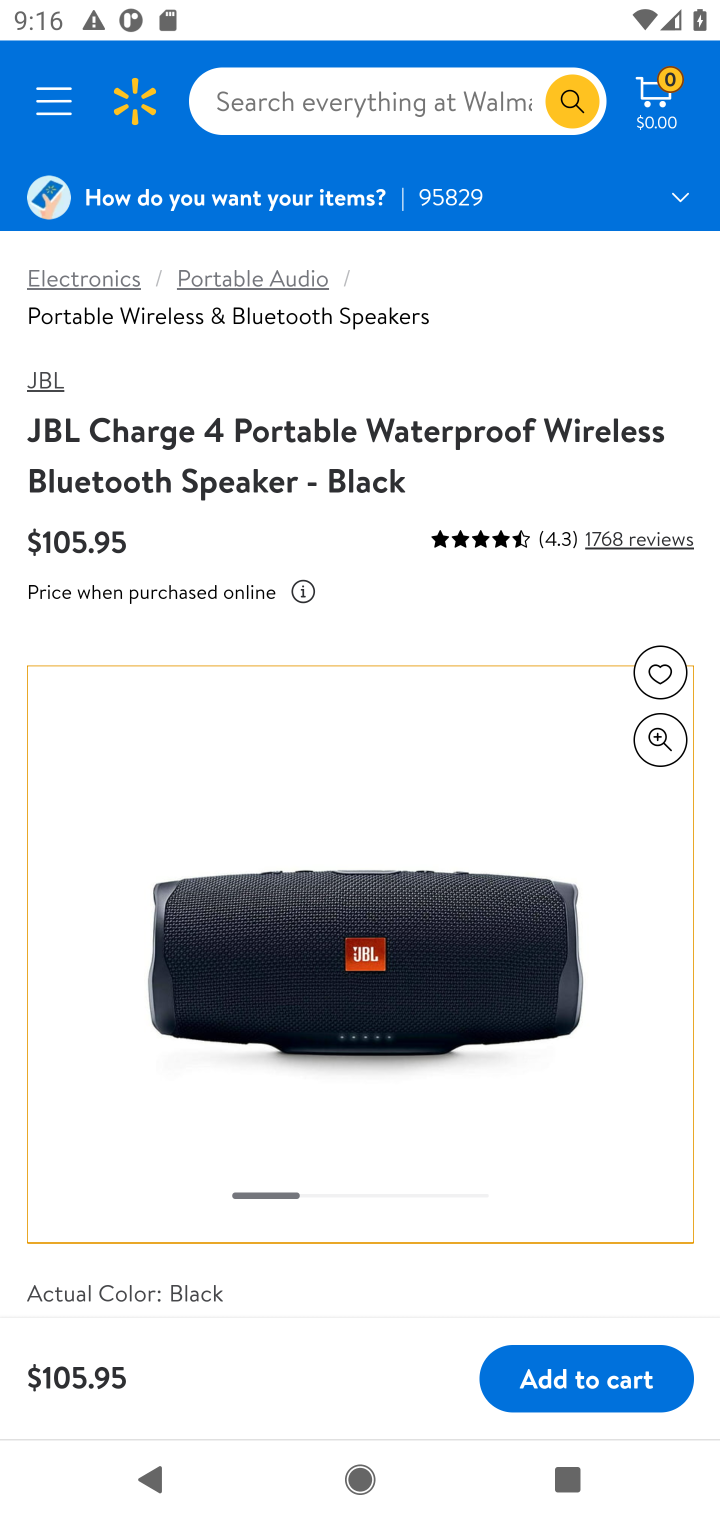
Step 32: click (572, 1379)
Your task to perform on an android device: Show the shopping cart on walmart.com. Add jbl charge 4 to the cart on walmart.com Image 33: 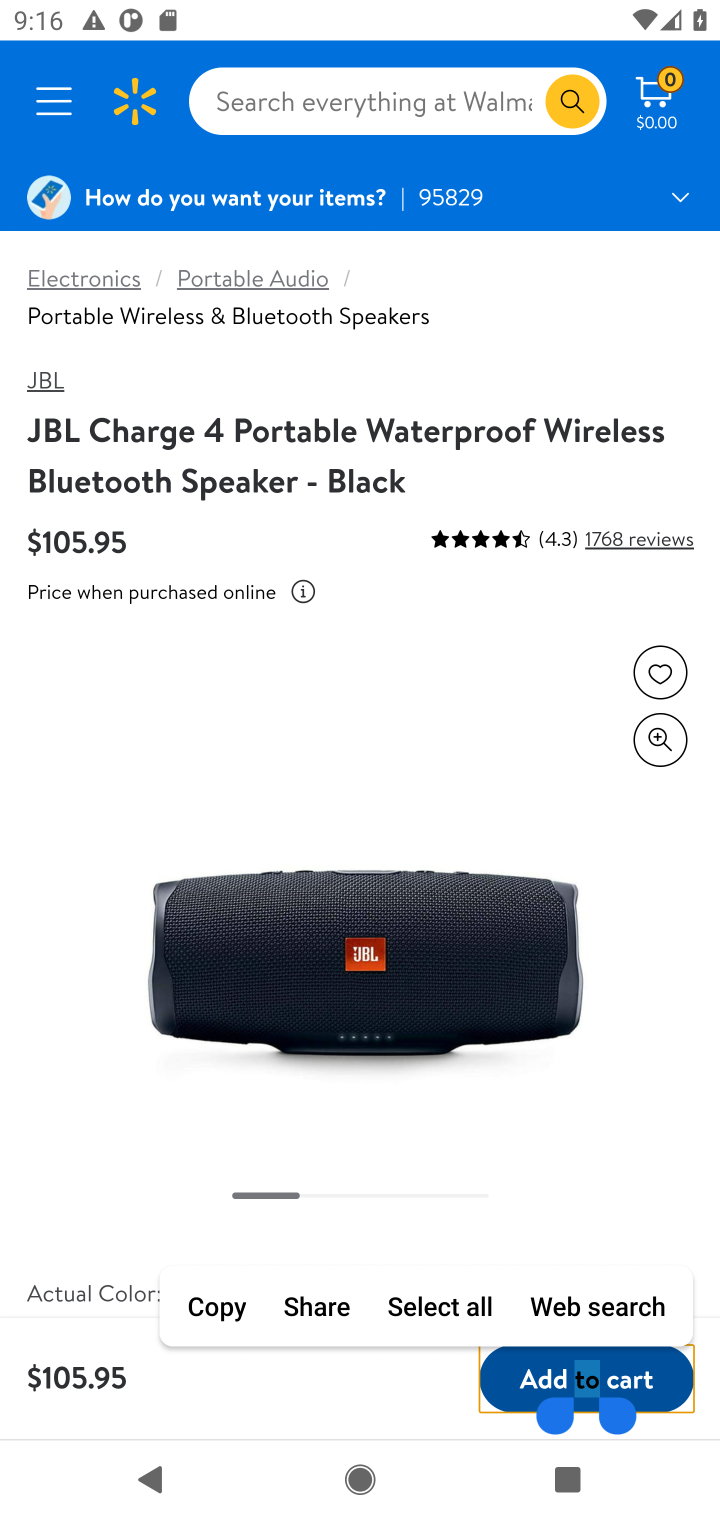
Step 33: click (629, 1377)
Your task to perform on an android device: Show the shopping cart on walmart.com. Add jbl charge 4 to the cart on walmart.com Image 34: 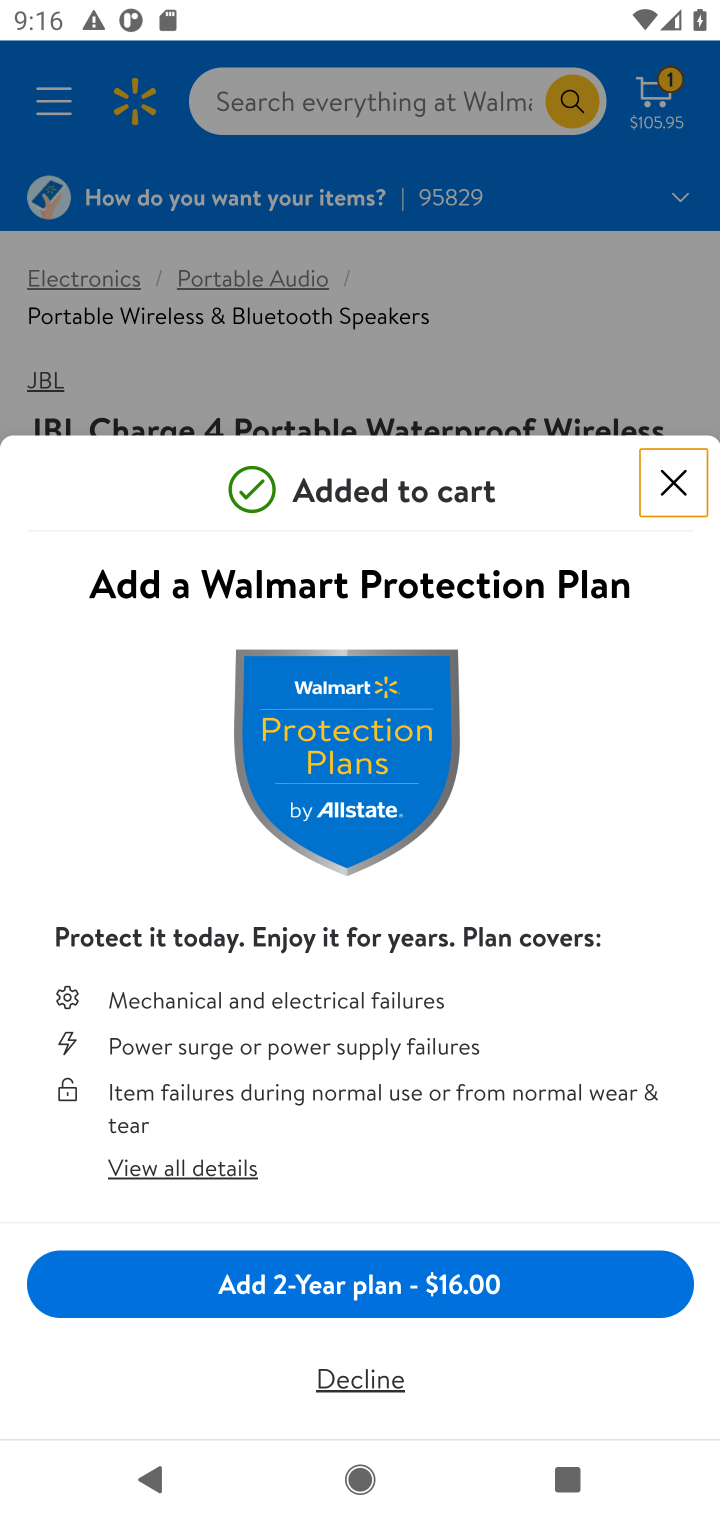
Step 34: task complete